Your task to perform on an android device: Search for top rated sushi restaurant Image 0: 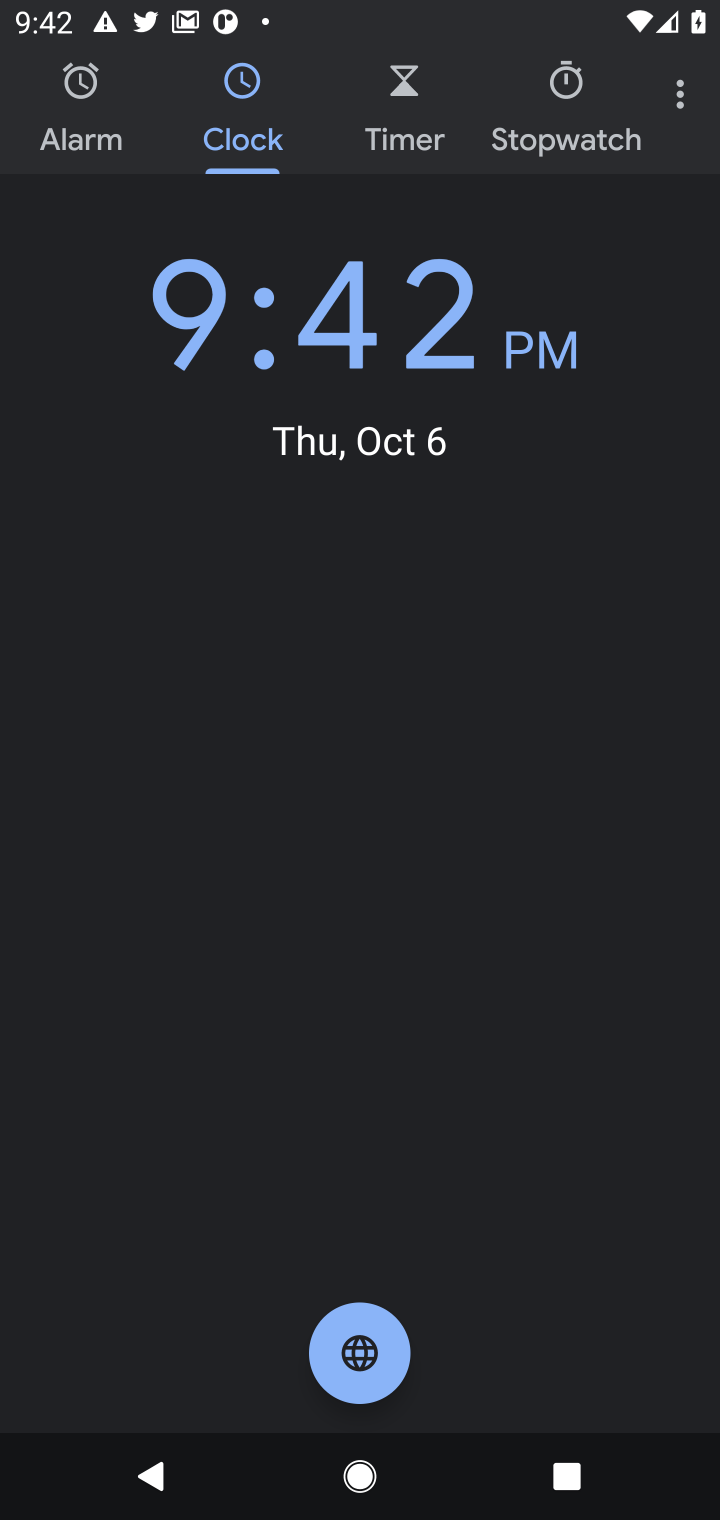
Step 0: press back button
Your task to perform on an android device: Search for top rated sushi restaurant Image 1: 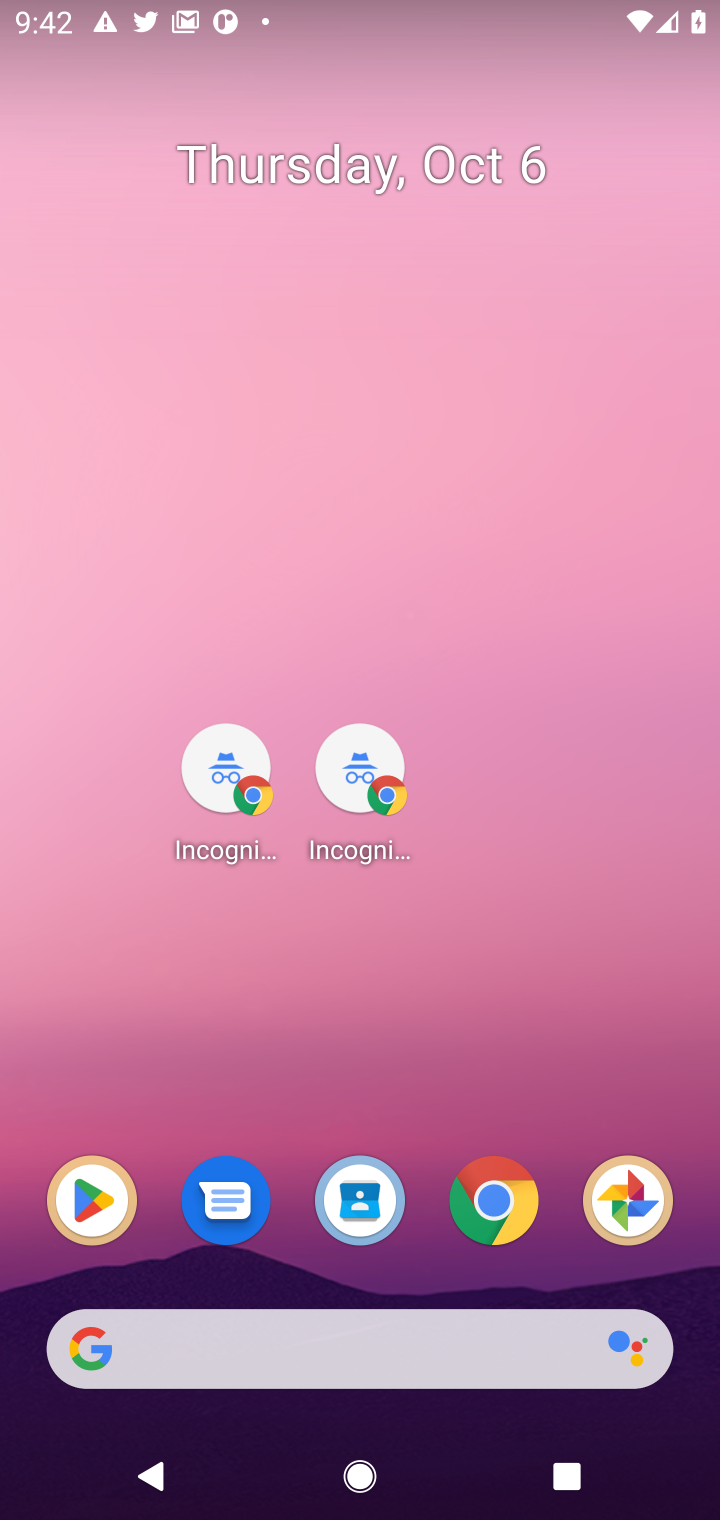
Step 1: click (489, 1215)
Your task to perform on an android device: Search for top rated sushi restaurant Image 2: 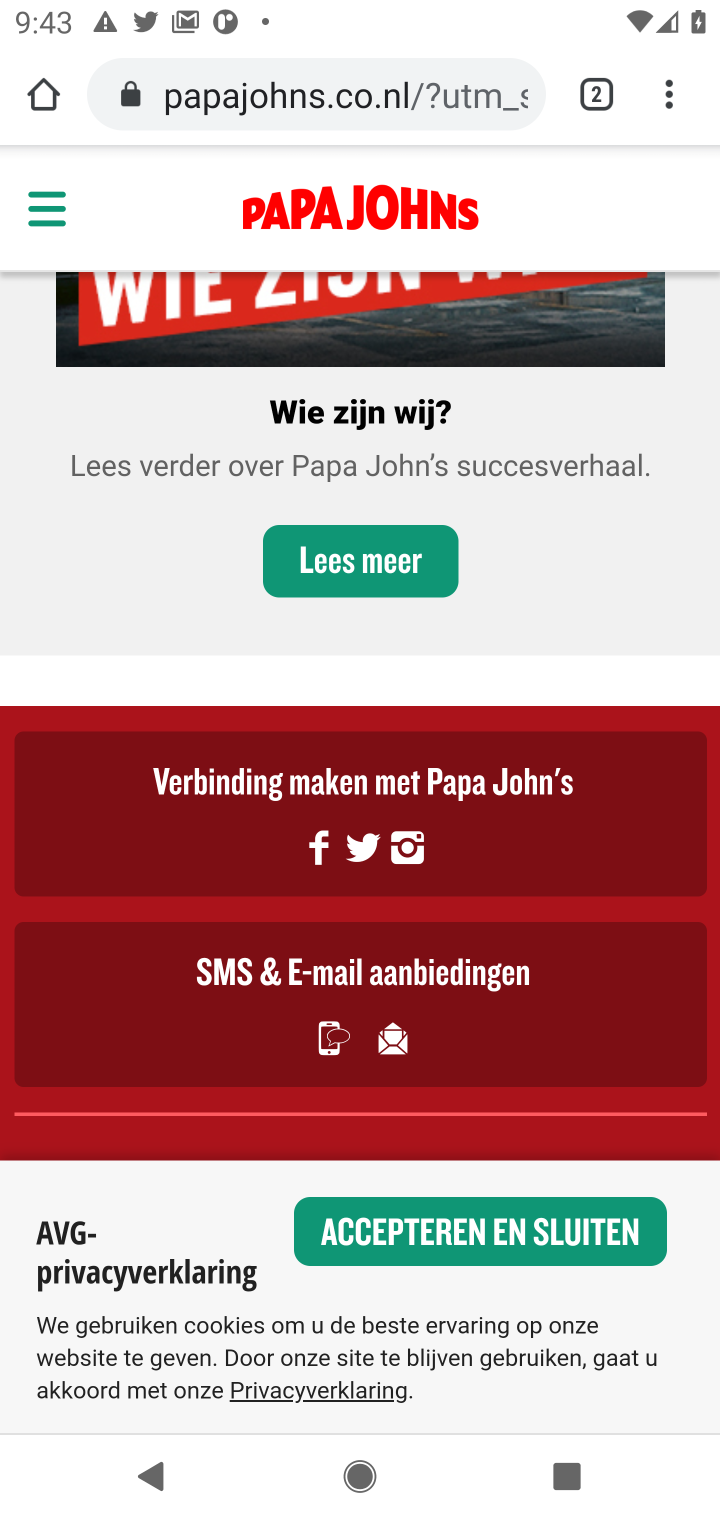
Step 2: press home button
Your task to perform on an android device: Search for top rated sushi restaurant Image 3: 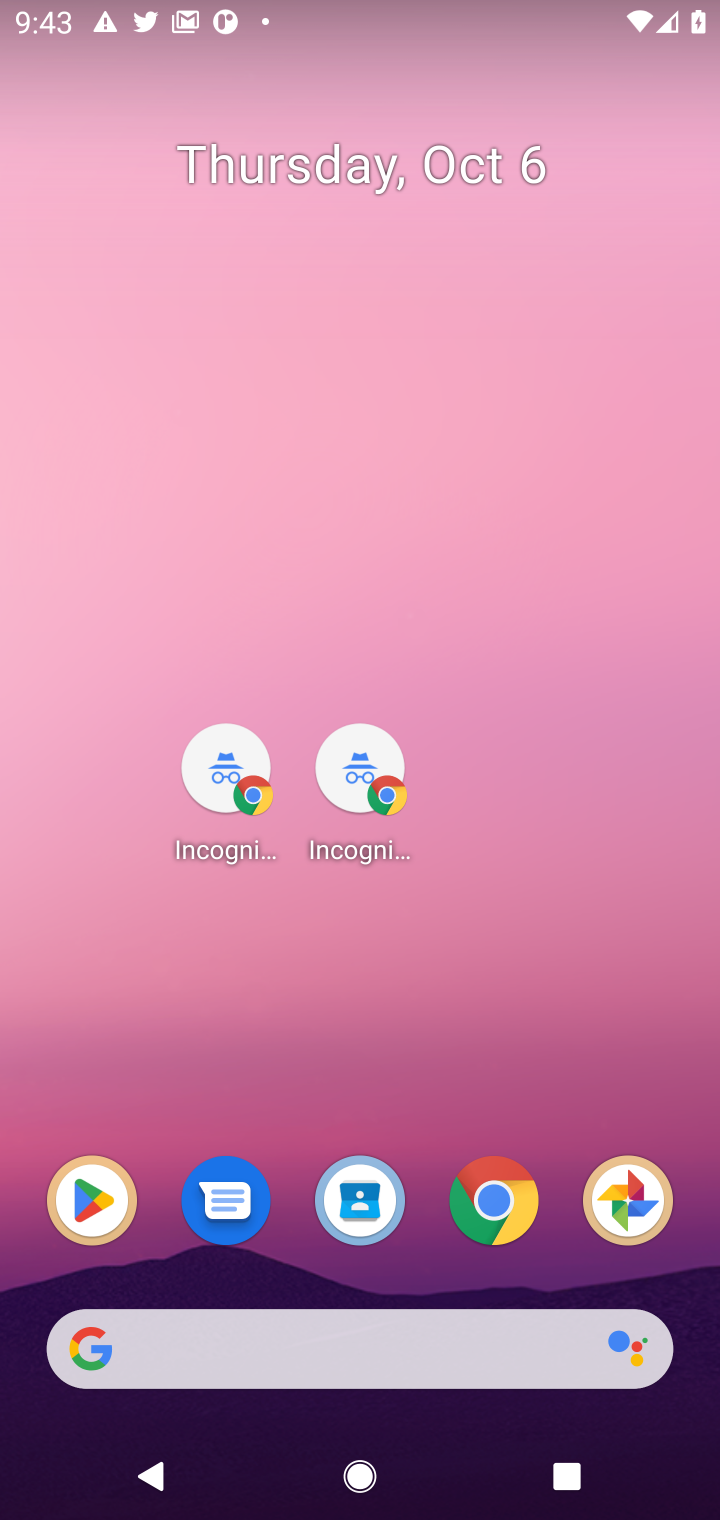
Step 3: click (503, 1214)
Your task to perform on an android device: Search for top rated sushi restaurant Image 4: 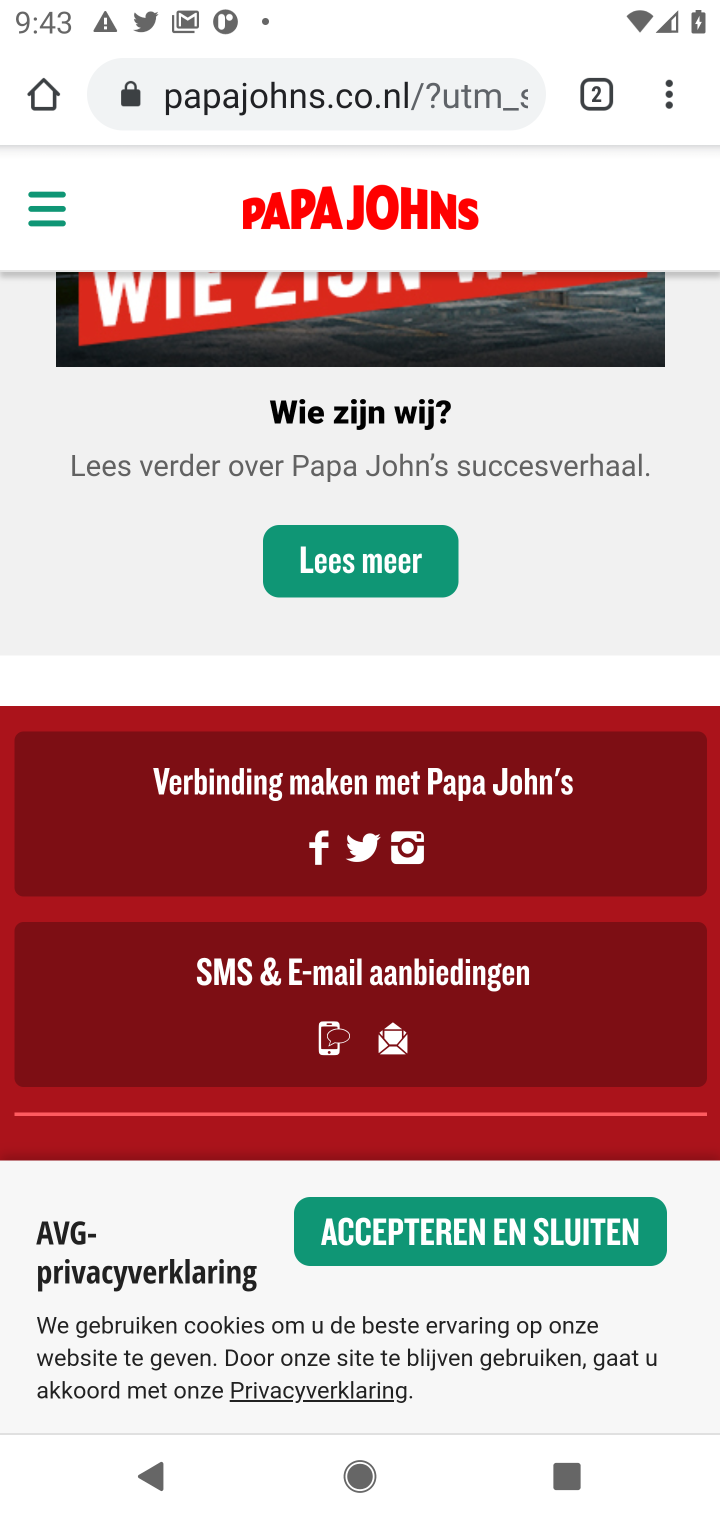
Step 4: press home button
Your task to perform on an android device: Search for top rated sushi restaurant Image 5: 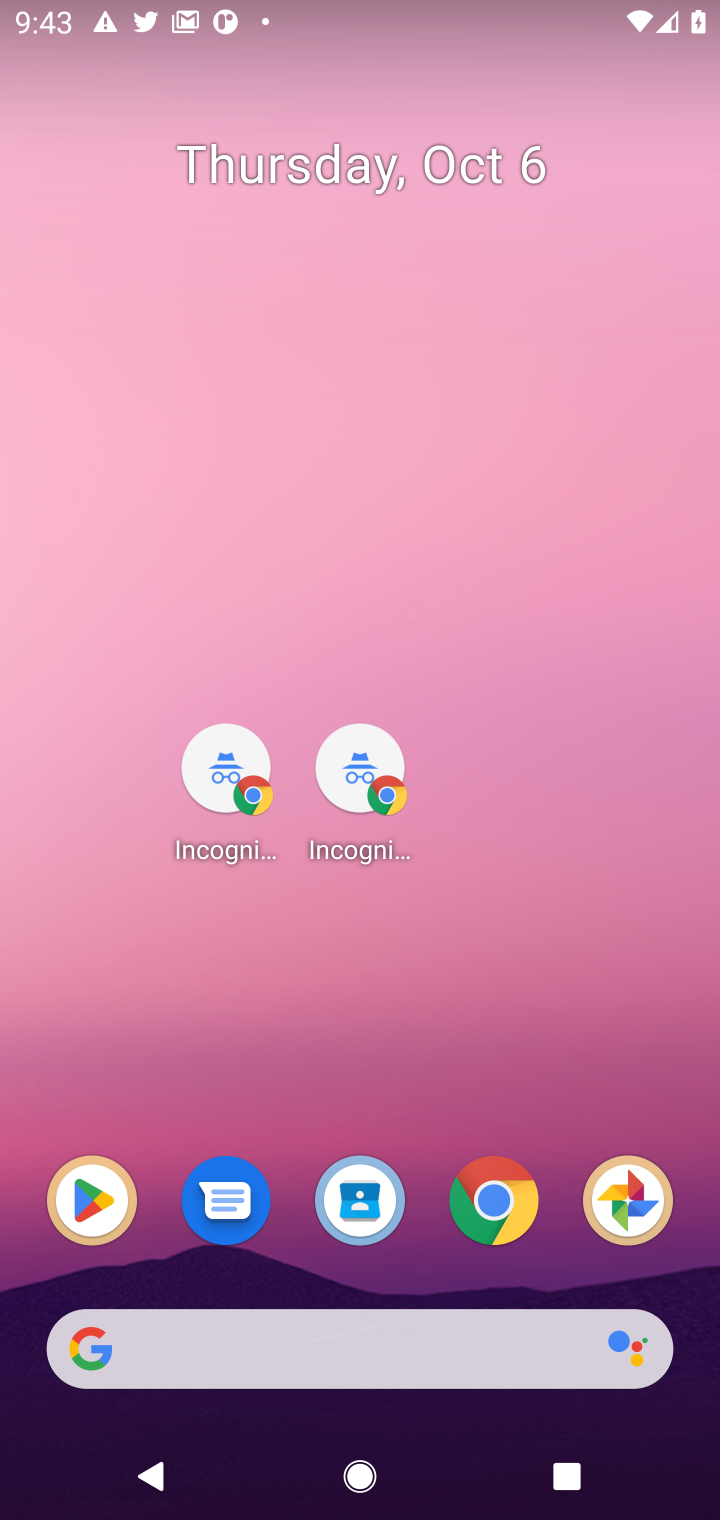
Step 5: click (496, 1198)
Your task to perform on an android device: Search for top rated sushi restaurant Image 6: 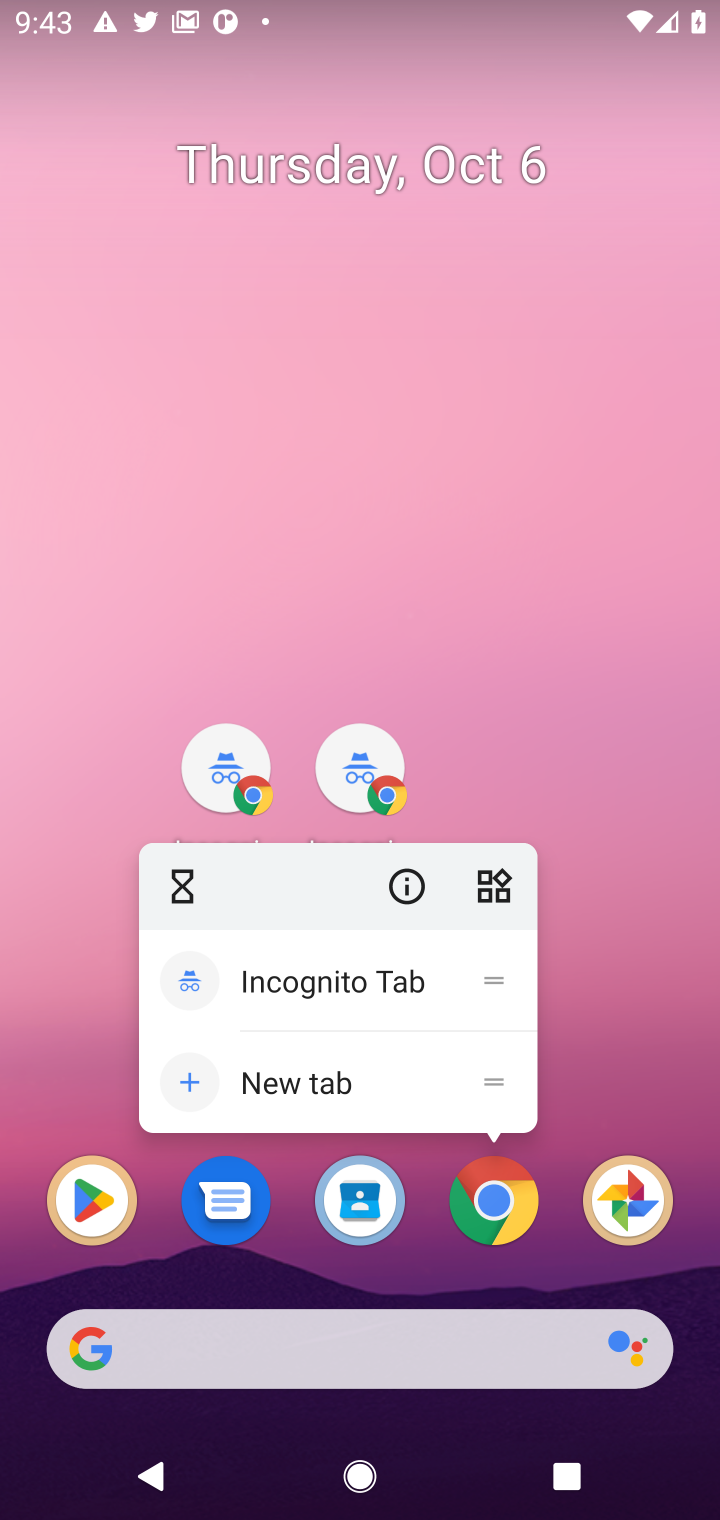
Step 6: press back button
Your task to perform on an android device: Search for top rated sushi restaurant Image 7: 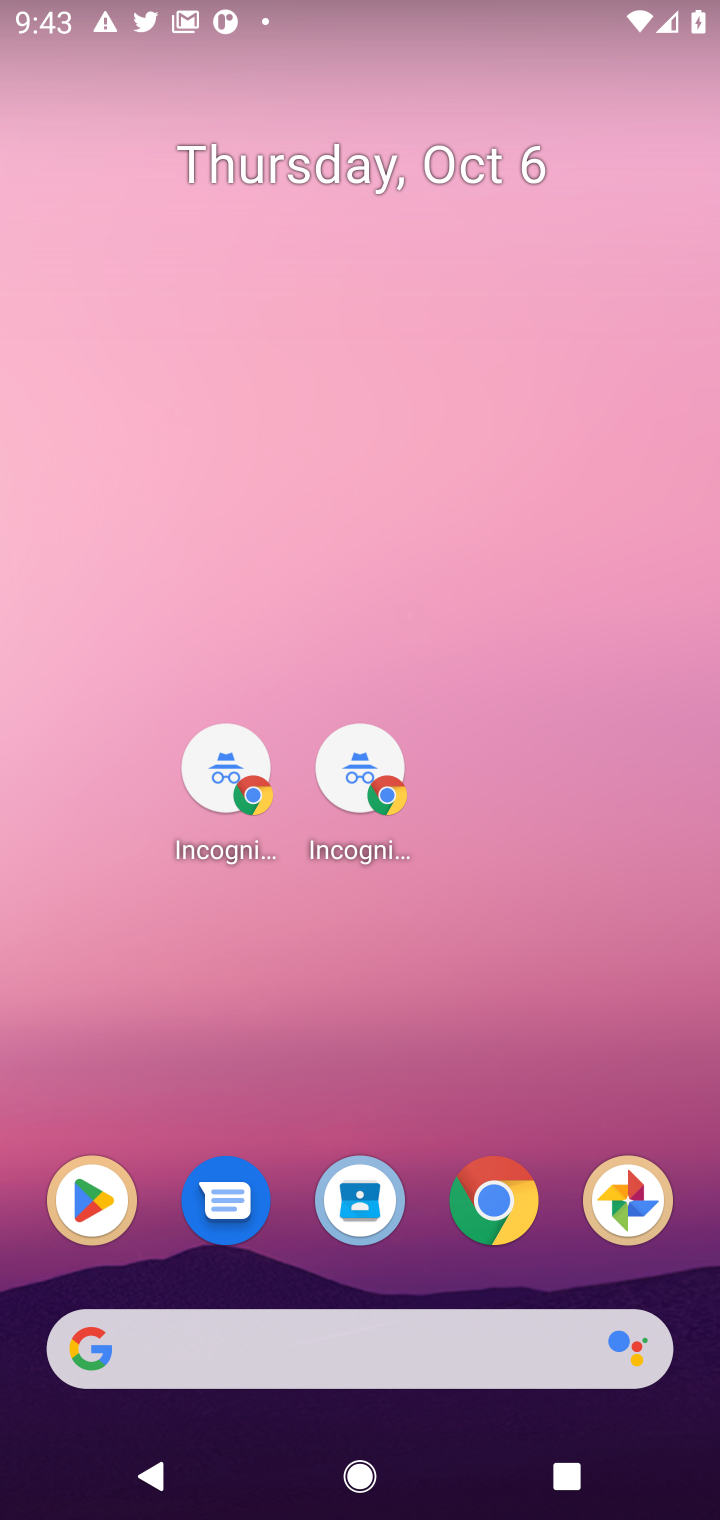
Step 7: press back button
Your task to perform on an android device: Search for top rated sushi restaurant Image 8: 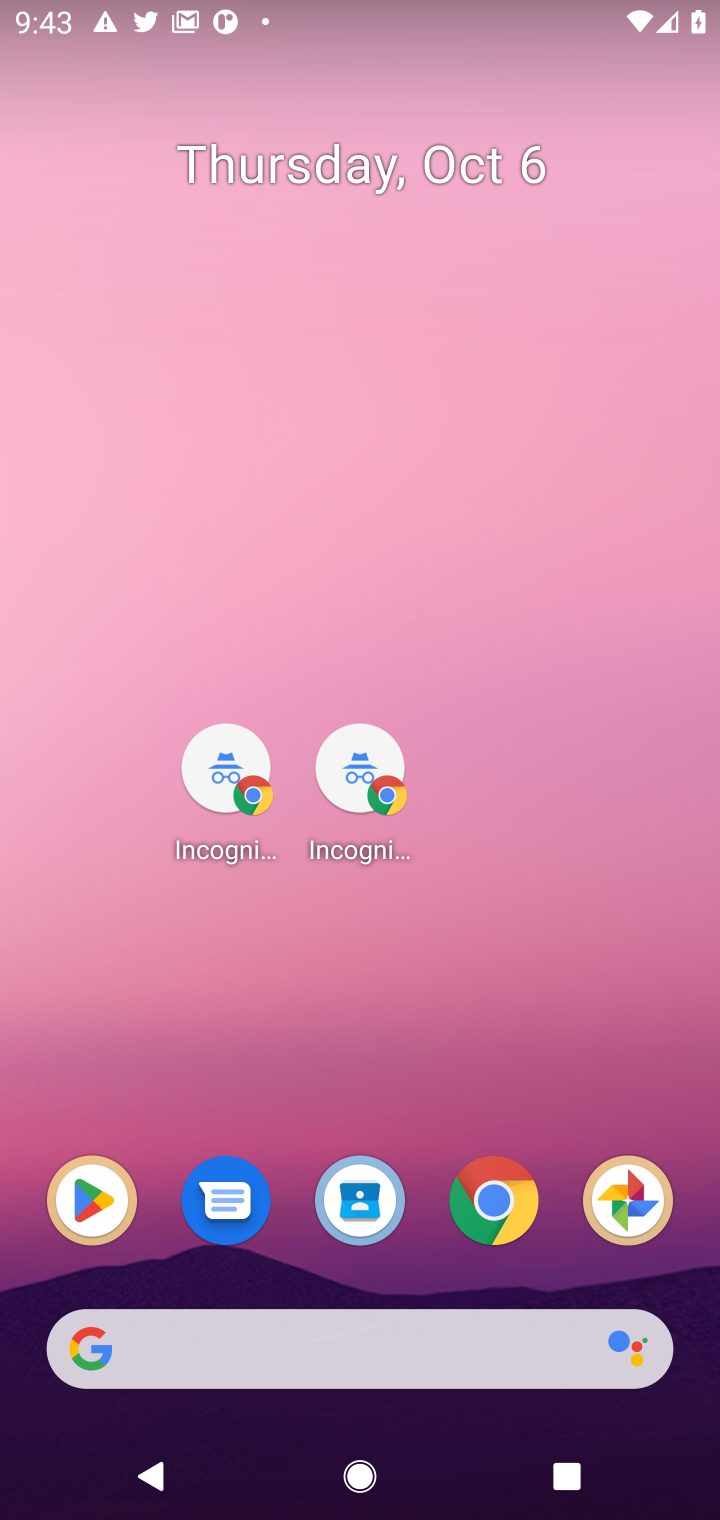
Step 8: press home button
Your task to perform on an android device: Search for top rated sushi restaurant Image 9: 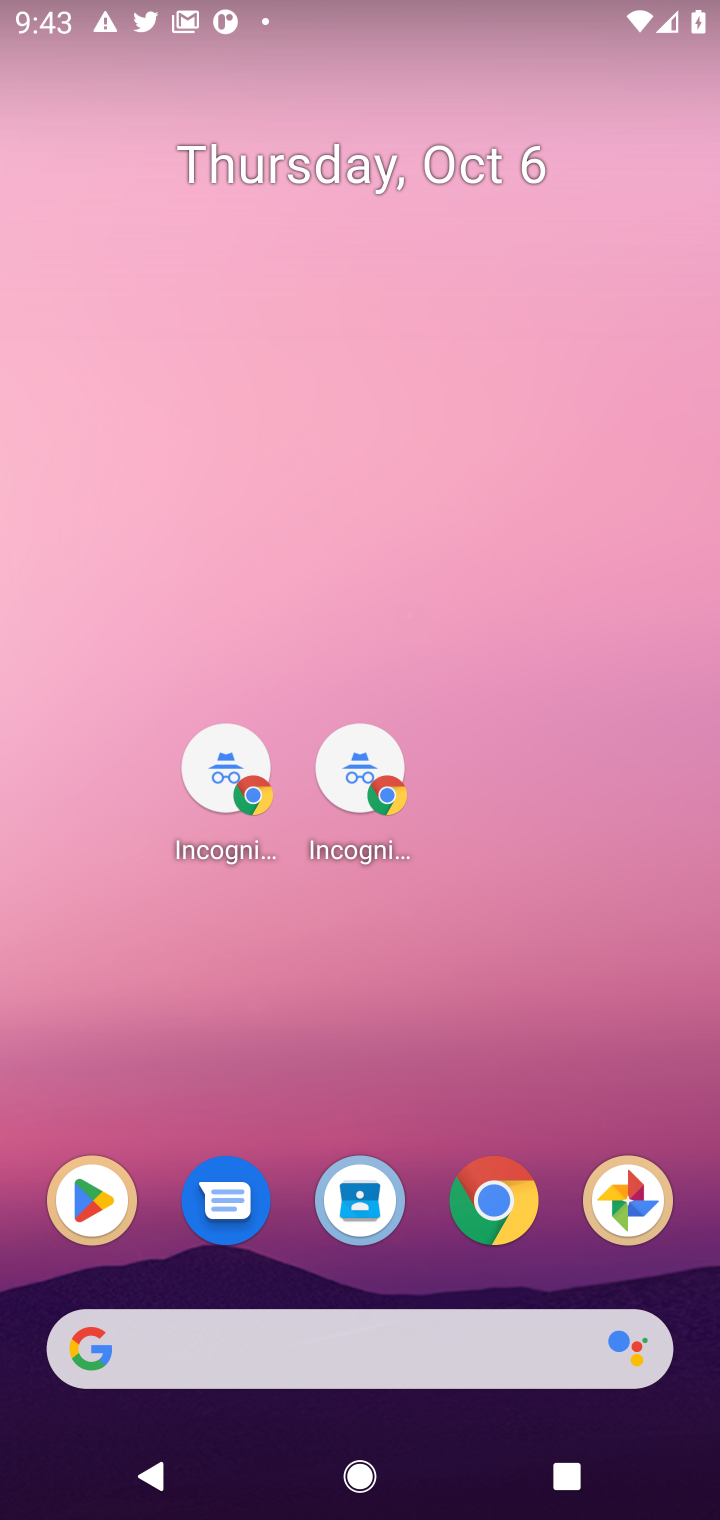
Step 9: press home button
Your task to perform on an android device: Search for top rated sushi restaurant Image 10: 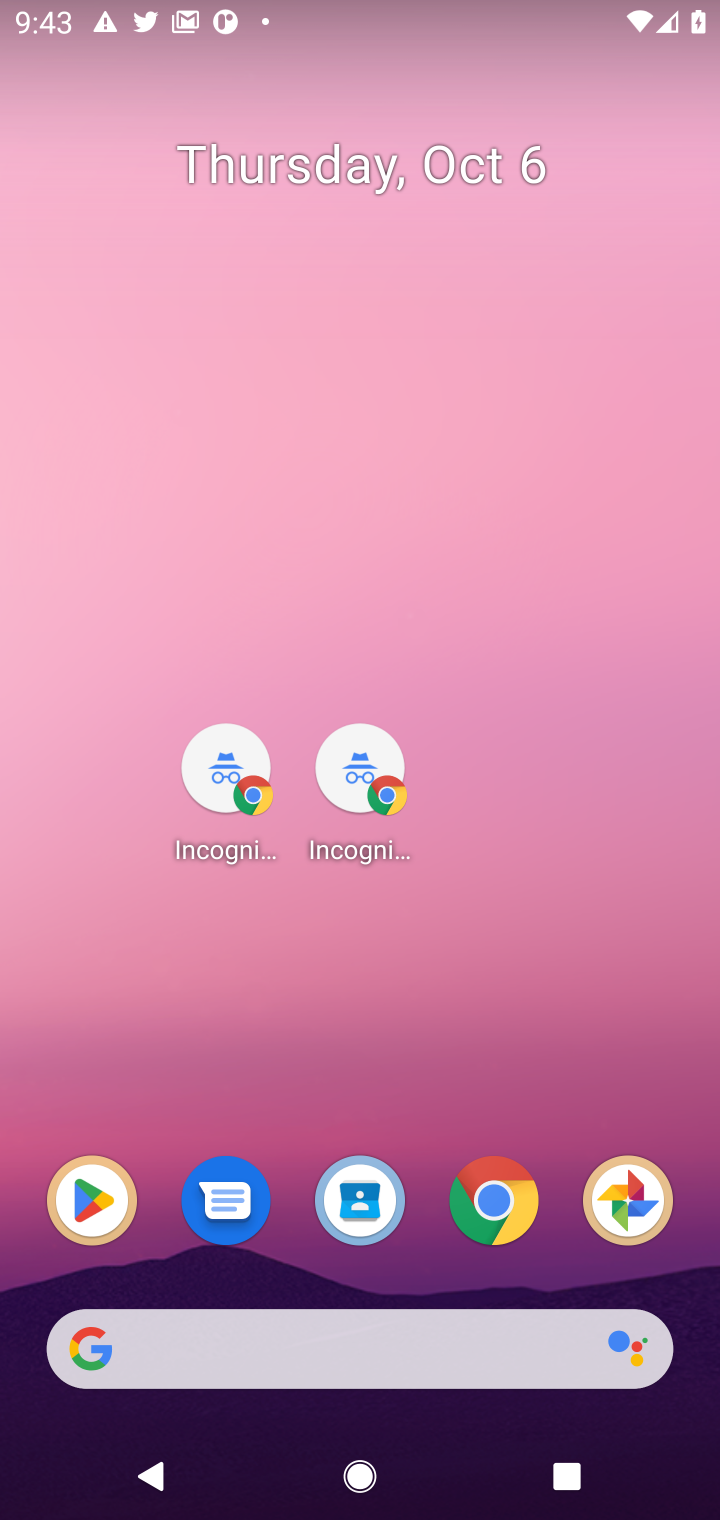
Step 10: click (470, 1168)
Your task to perform on an android device: Search for top rated sushi restaurant Image 11: 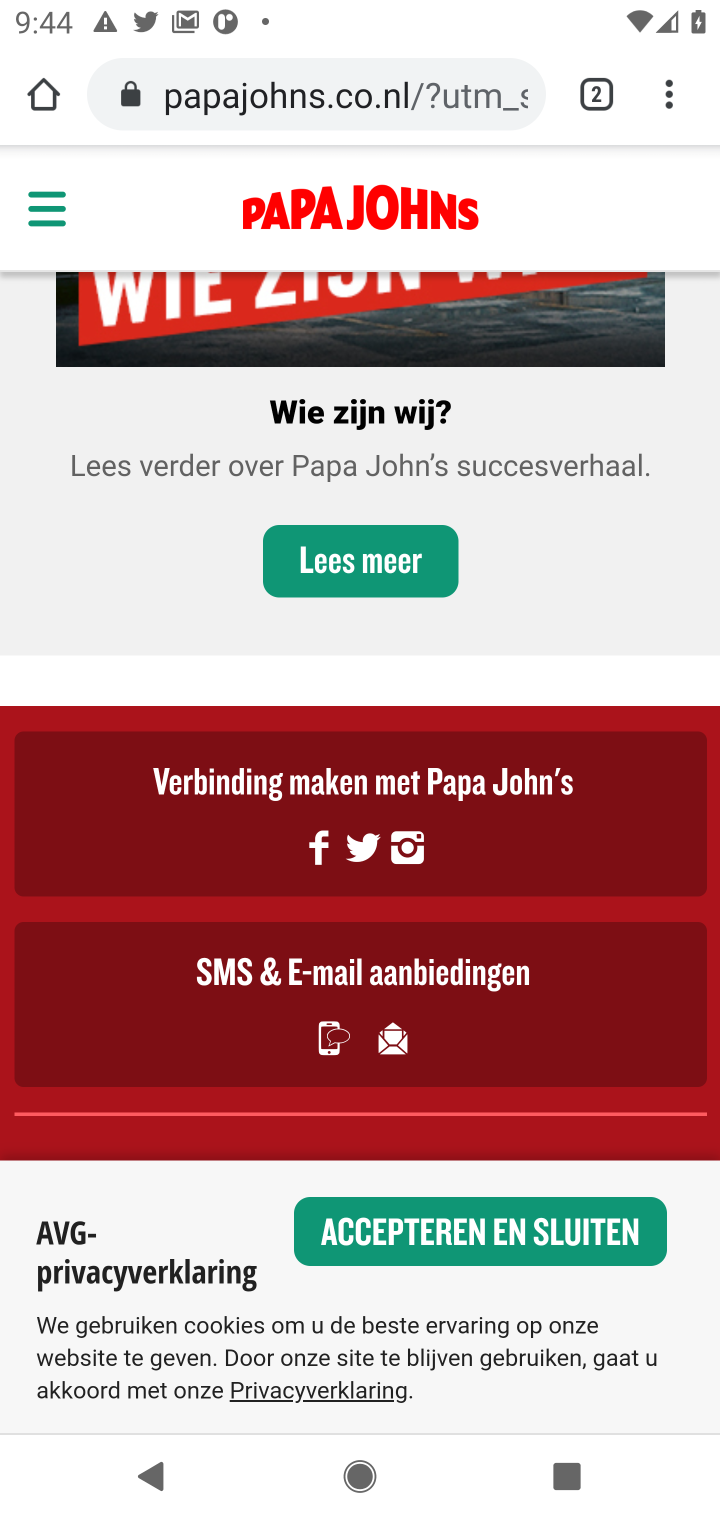
Step 11: press back button
Your task to perform on an android device: Search for top rated sushi restaurant Image 12: 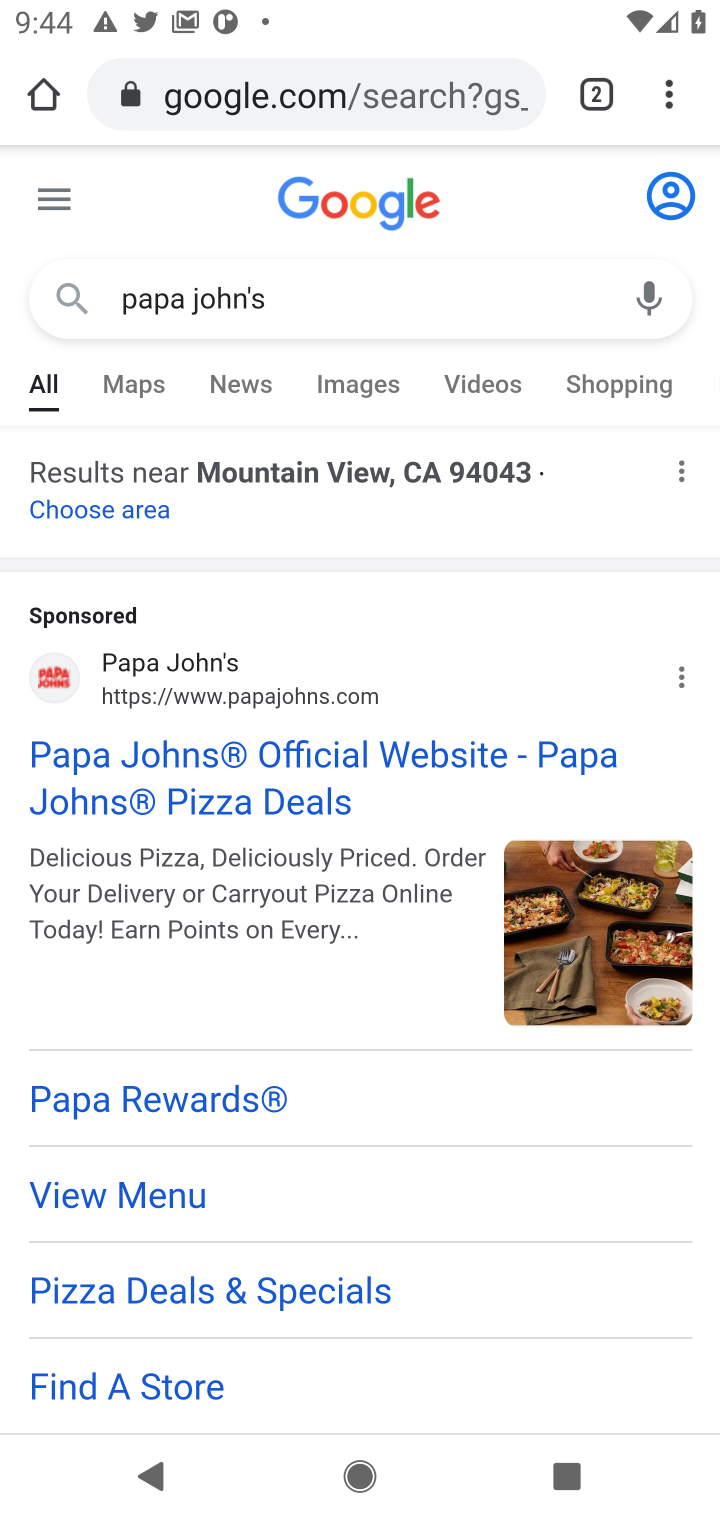
Step 12: click (357, 299)
Your task to perform on an android device: Search for top rated sushi restaurant Image 13: 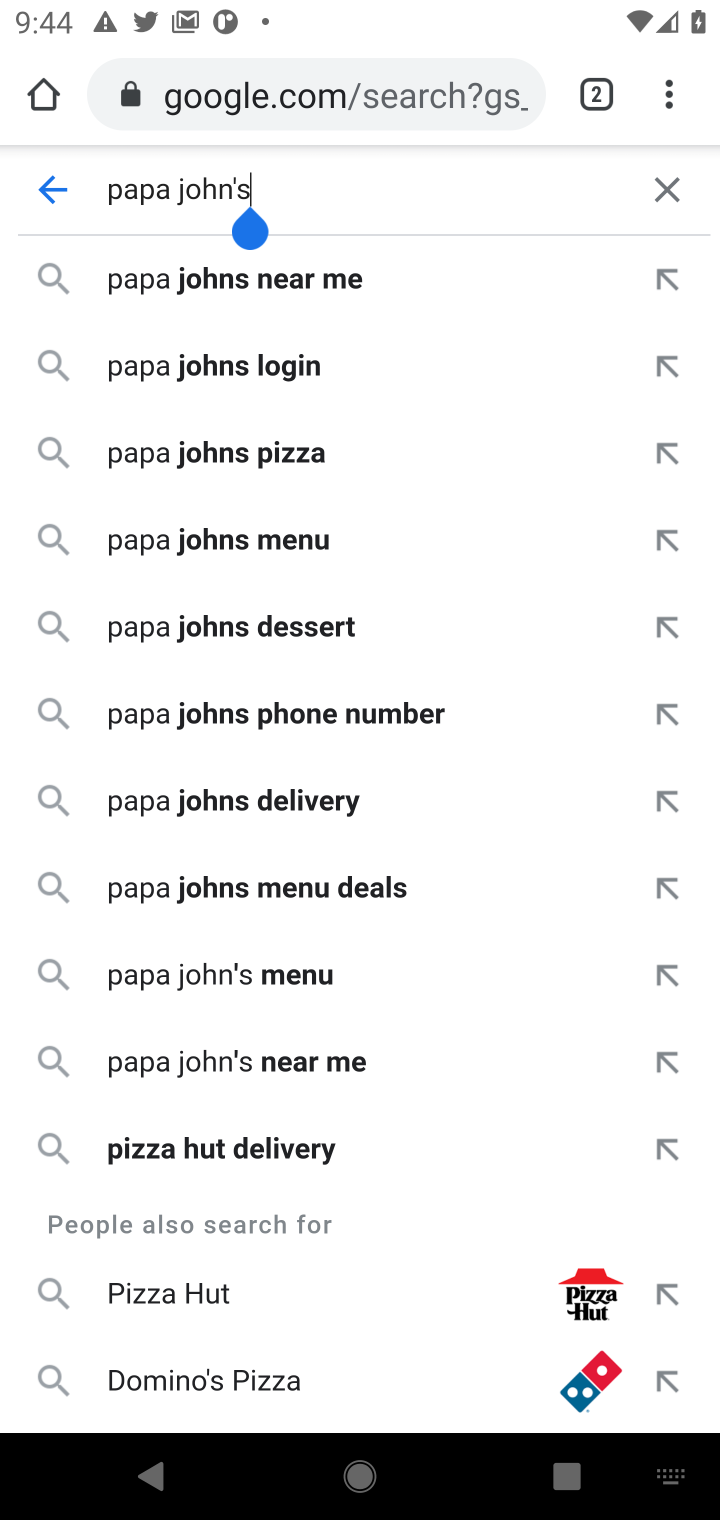
Step 13: click (345, 84)
Your task to perform on an android device: Search for top rated sushi restaurant Image 14: 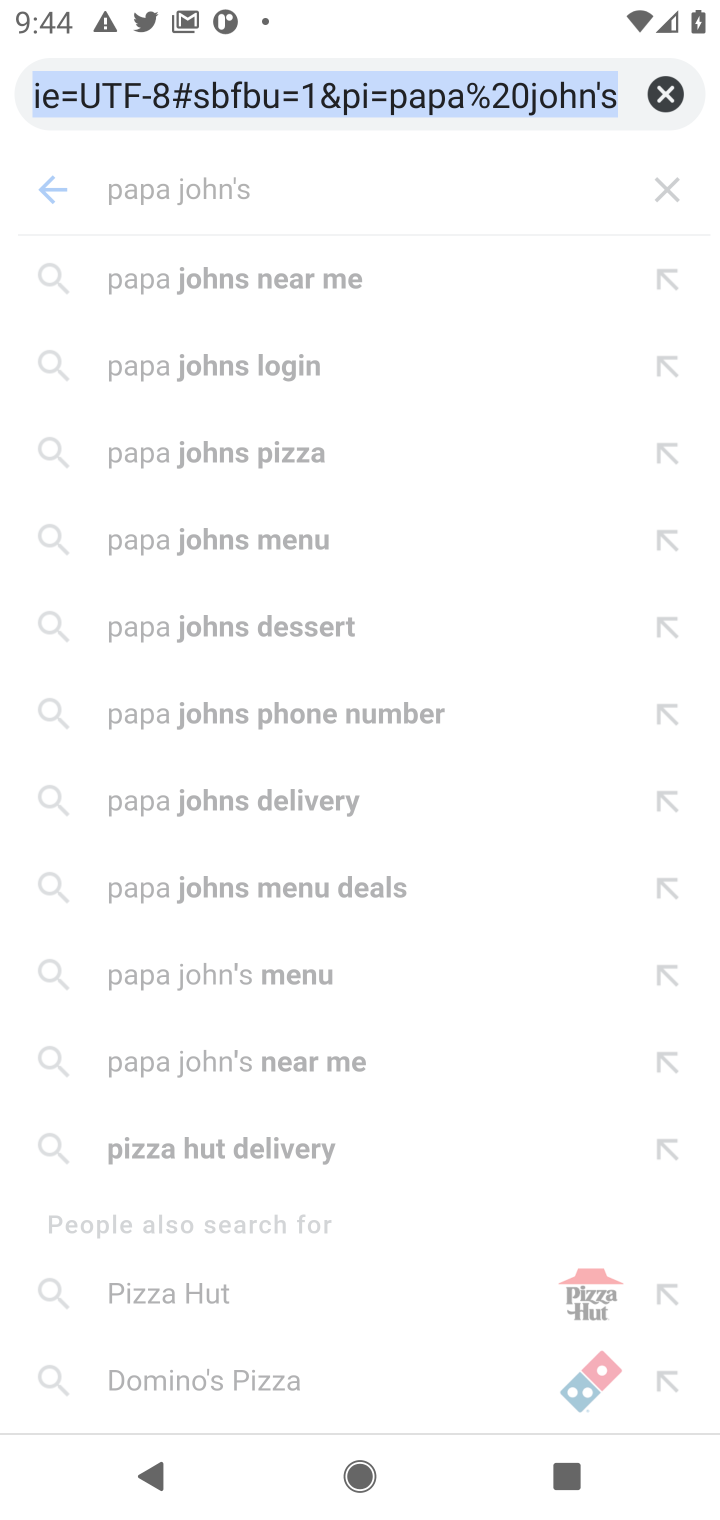
Step 14: click (657, 93)
Your task to perform on an android device: Search for top rated sushi restaurant Image 15: 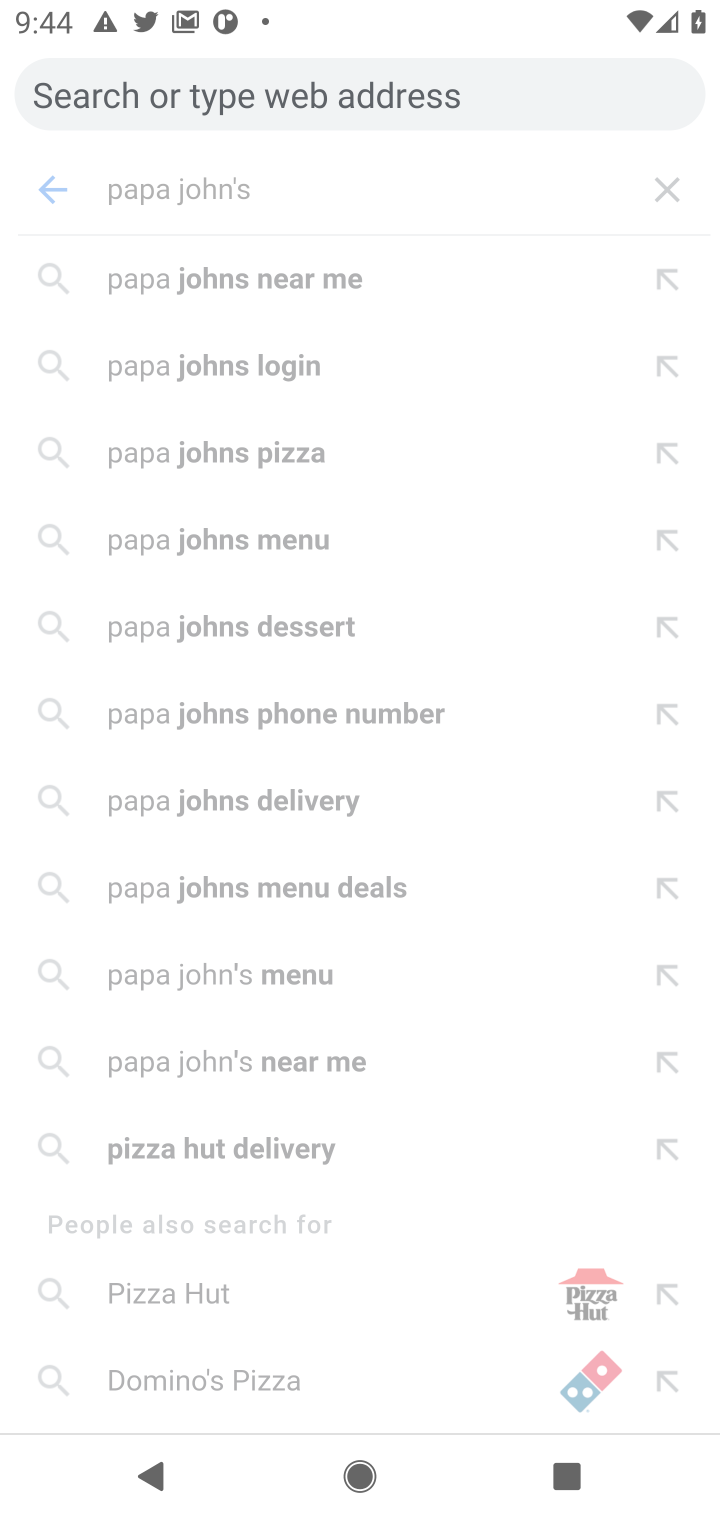
Step 15: type "top rated sushi resturant"
Your task to perform on an android device: Search for top rated sushi restaurant Image 16: 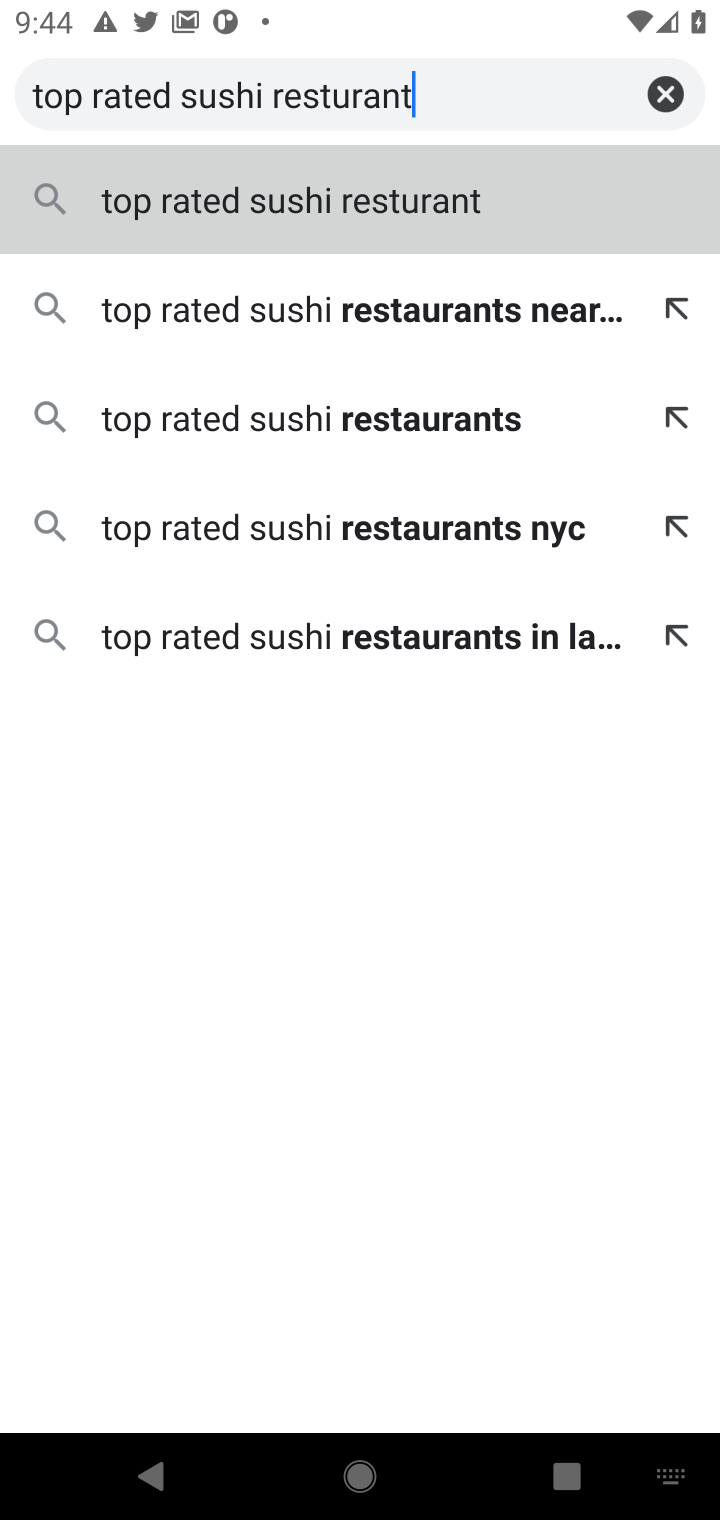
Step 16: click (391, 315)
Your task to perform on an android device: Search for top rated sushi restaurant Image 17: 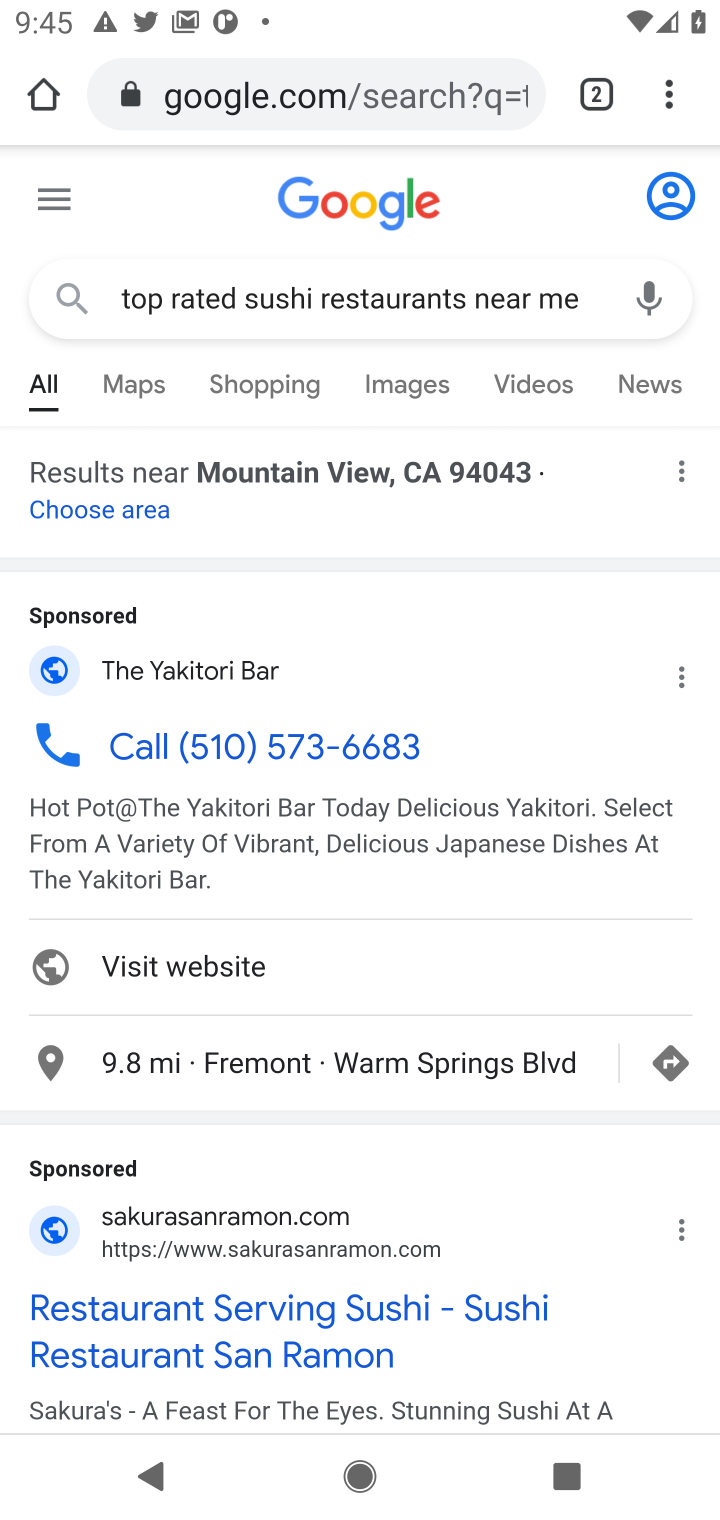
Step 17: drag from (426, 1164) to (601, 463)
Your task to perform on an android device: Search for top rated sushi restaurant Image 18: 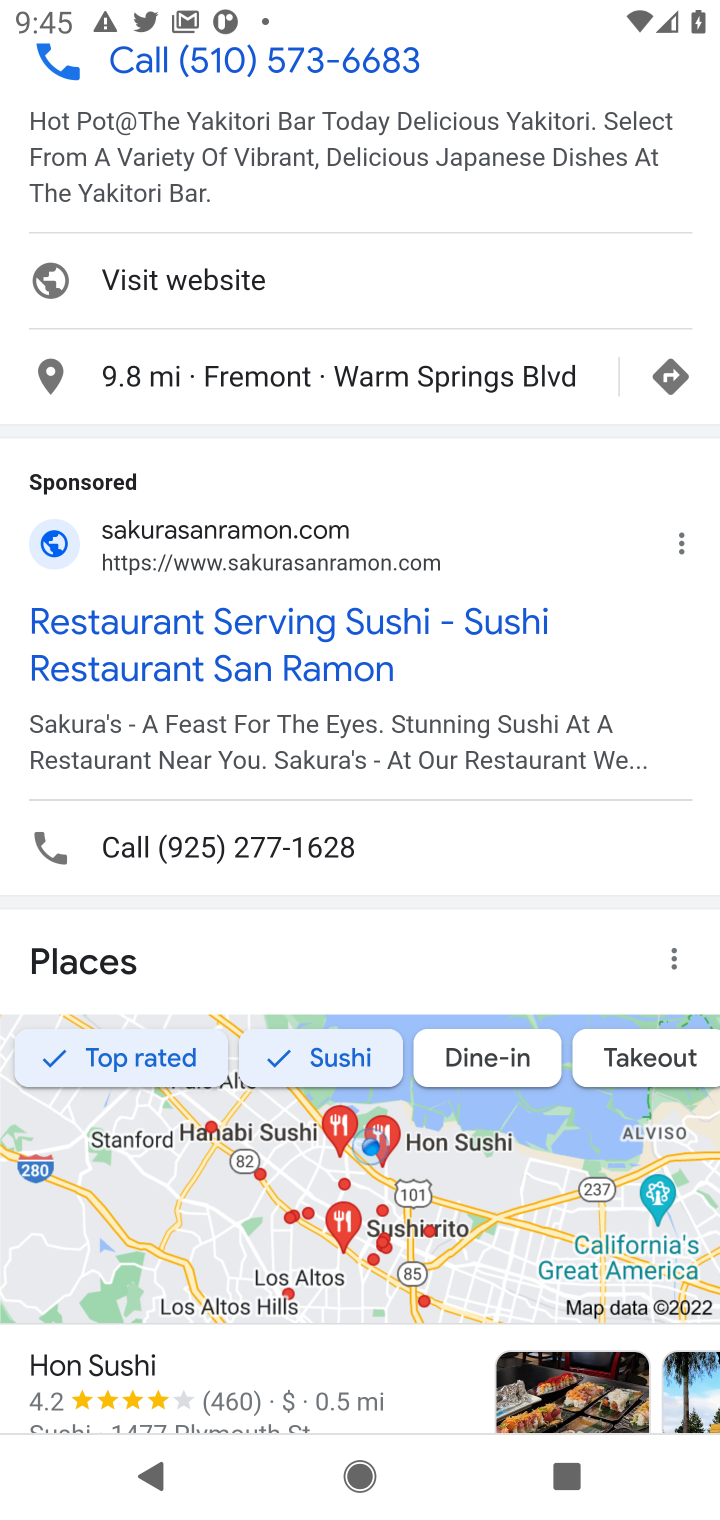
Step 18: click (266, 609)
Your task to perform on an android device: Search for top rated sushi restaurant Image 19: 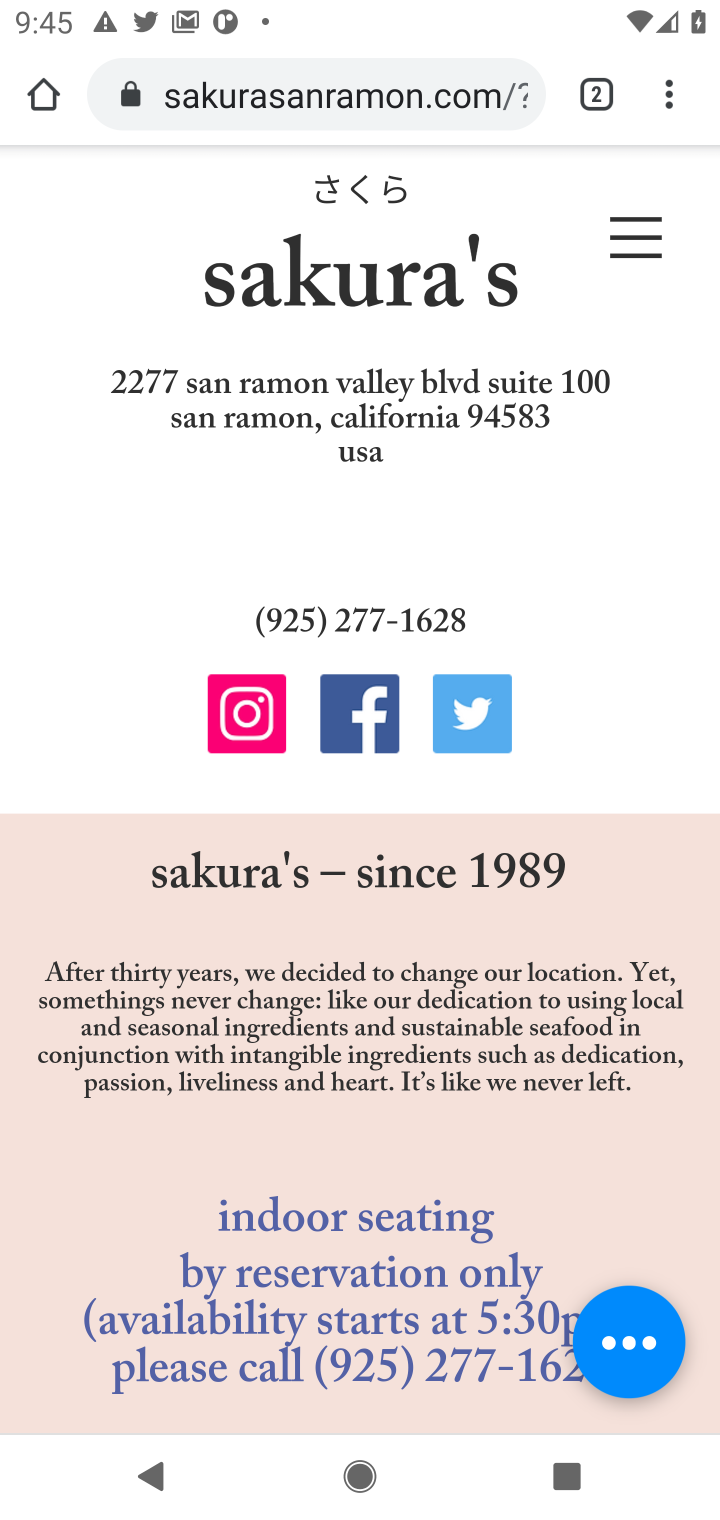
Step 19: drag from (594, 932) to (633, 673)
Your task to perform on an android device: Search for top rated sushi restaurant Image 20: 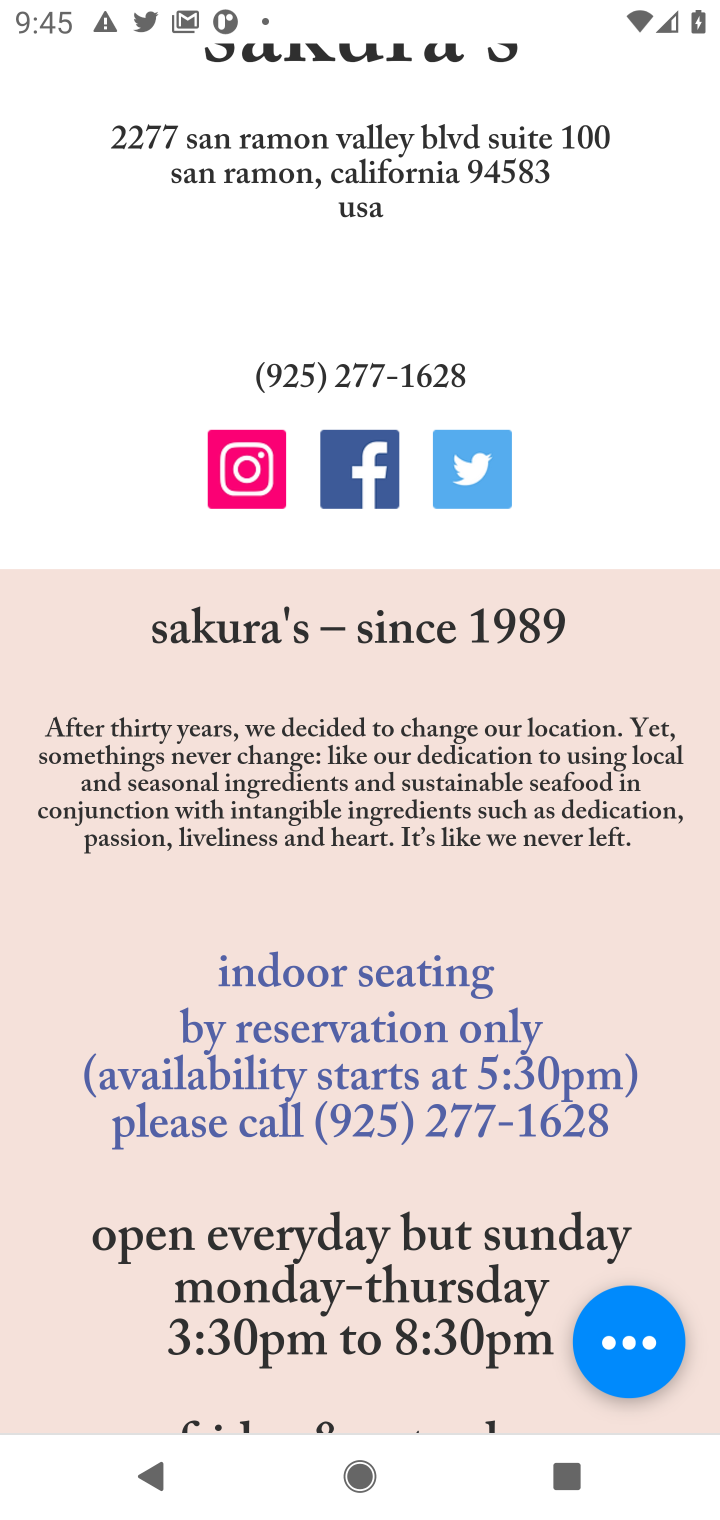
Step 20: drag from (454, 852) to (463, 625)
Your task to perform on an android device: Search for top rated sushi restaurant Image 21: 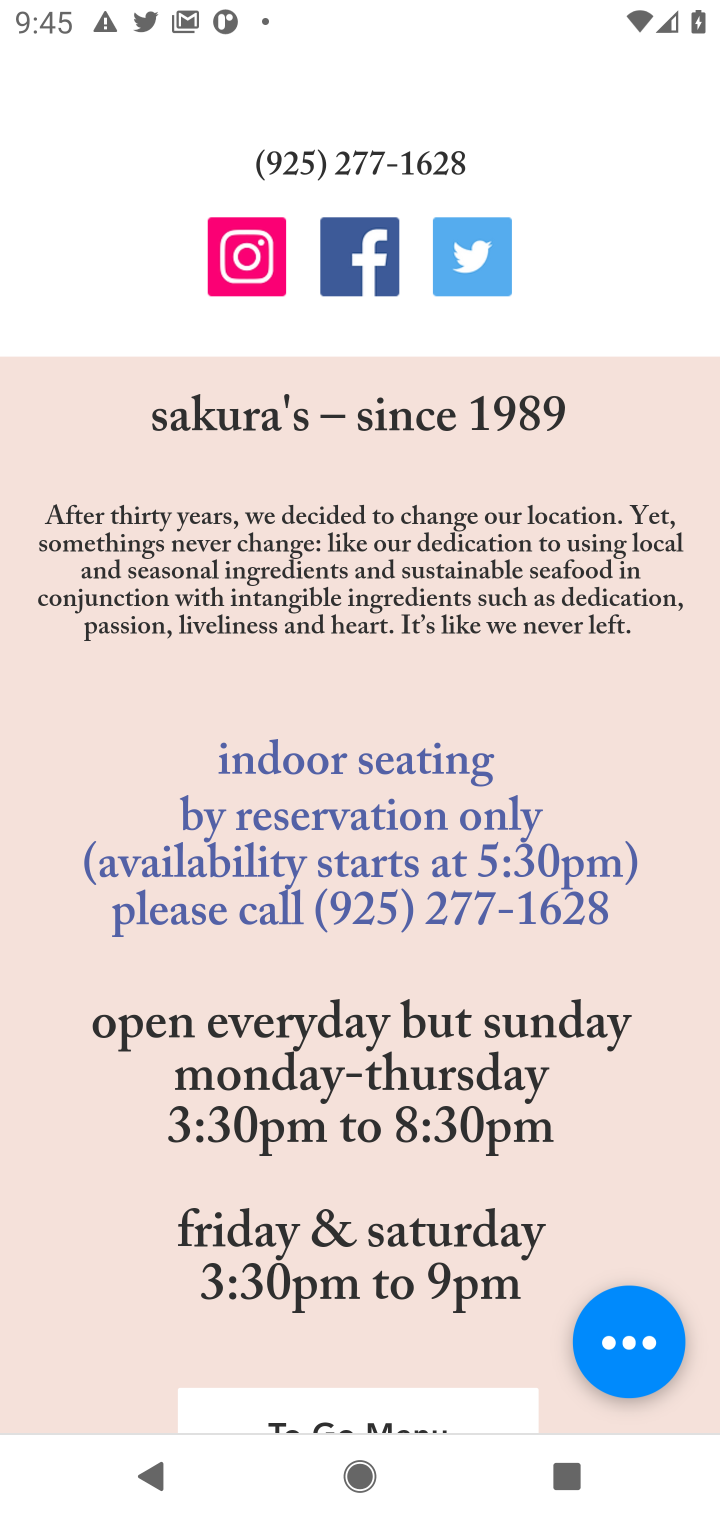
Step 21: drag from (397, 953) to (381, 575)
Your task to perform on an android device: Search for top rated sushi restaurant Image 22: 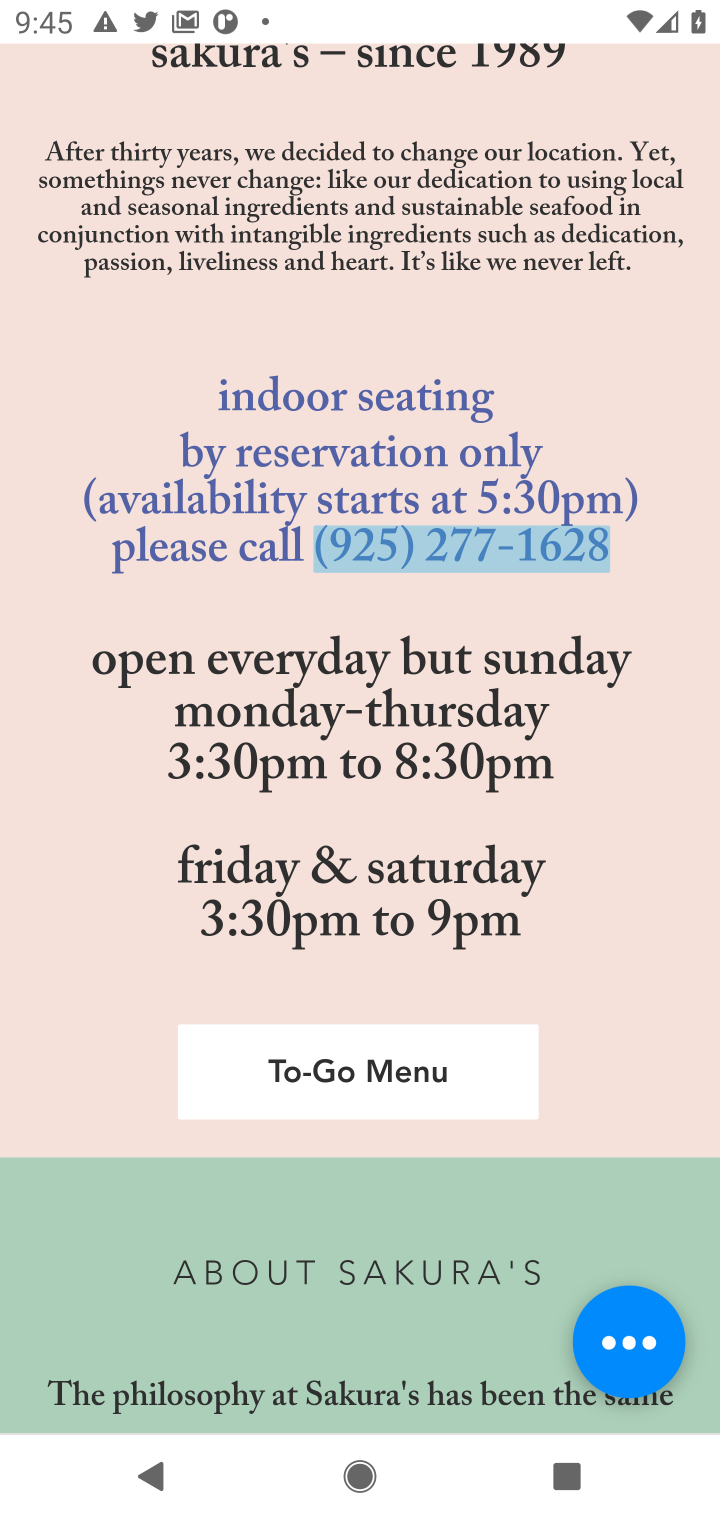
Step 22: drag from (375, 1138) to (389, 648)
Your task to perform on an android device: Search for top rated sushi restaurant Image 23: 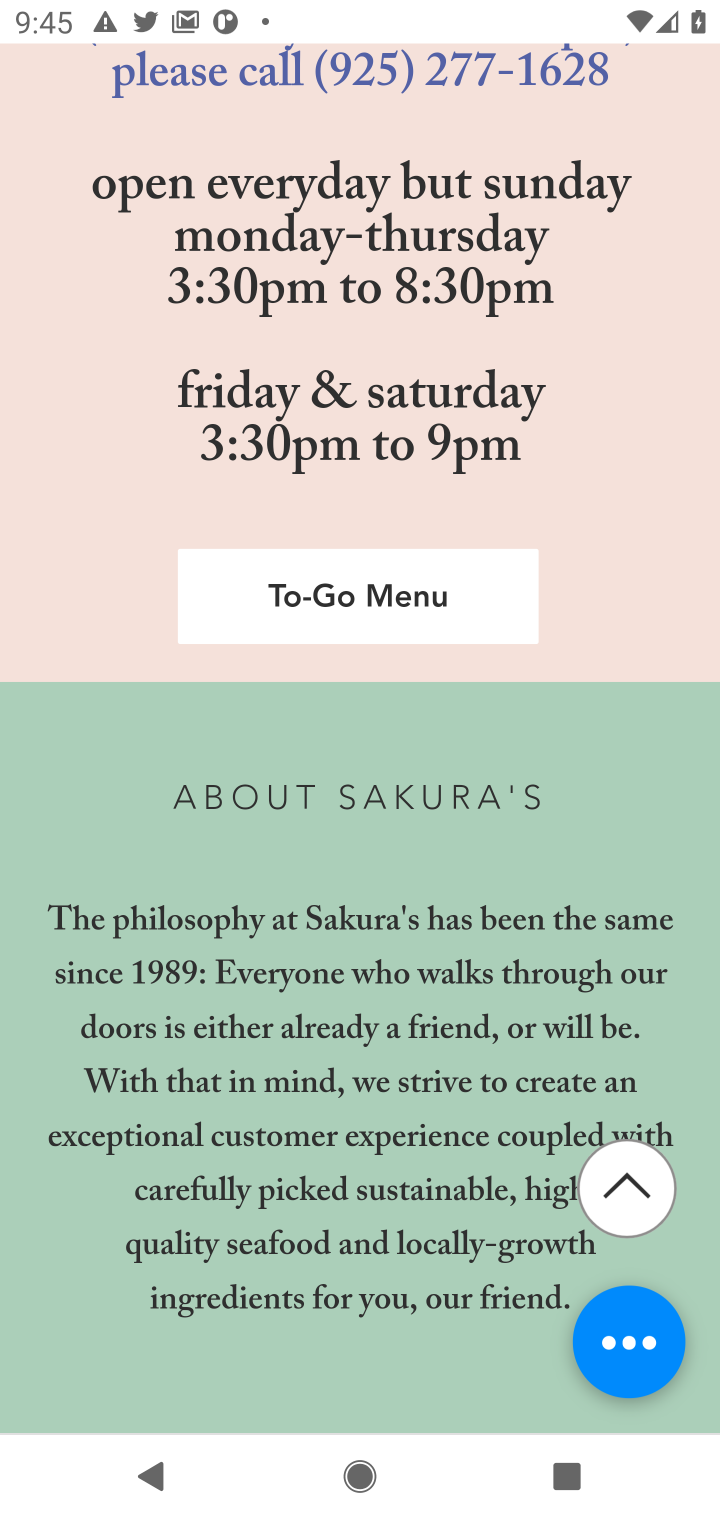
Step 23: drag from (423, 425) to (538, 1265)
Your task to perform on an android device: Search for top rated sushi restaurant Image 24: 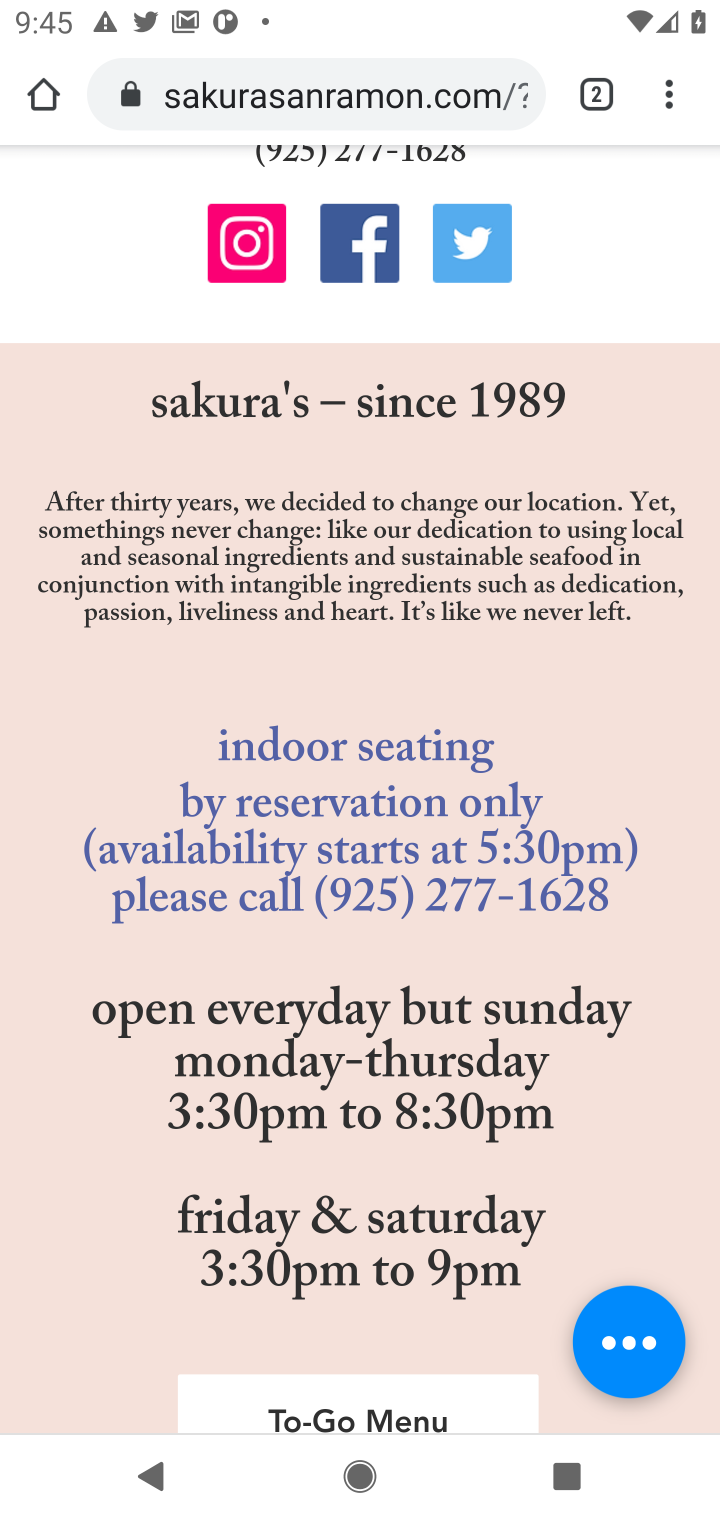
Step 24: drag from (613, 834) to (595, 1373)
Your task to perform on an android device: Search for top rated sushi restaurant Image 25: 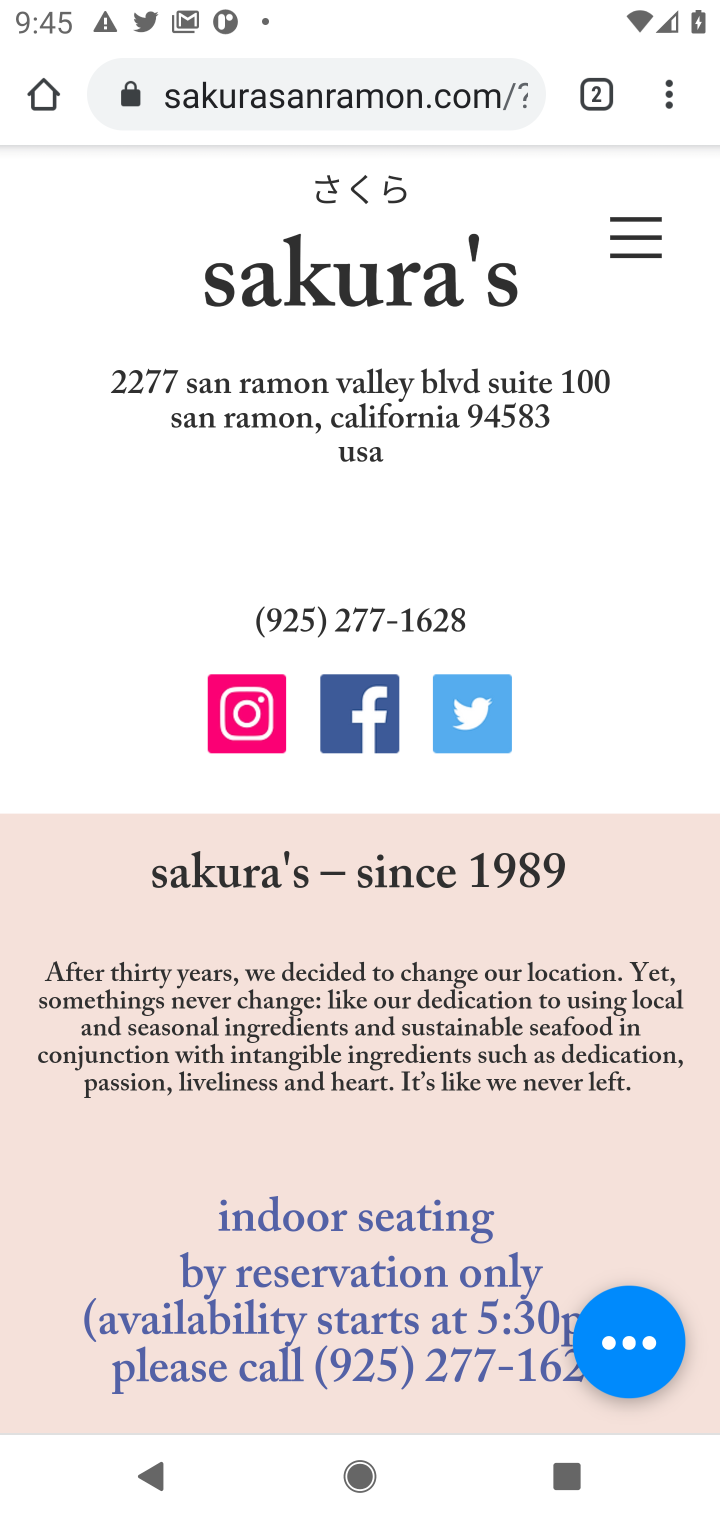
Step 25: drag from (362, 393) to (448, 1117)
Your task to perform on an android device: Search for top rated sushi restaurant Image 26: 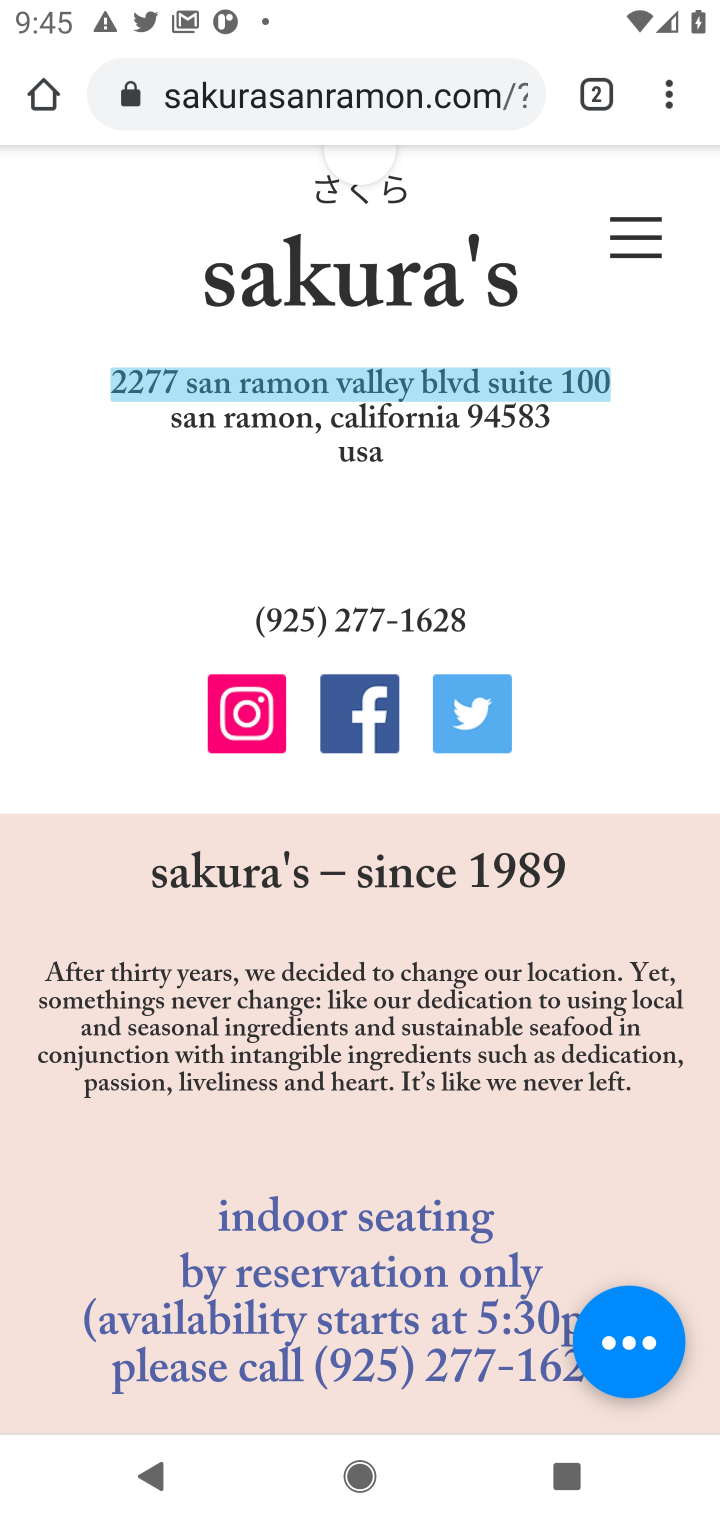
Step 26: drag from (169, 554) to (204, 1142)
Your task to perform on an android device: Search for top rated sushi restaurant Image 27: 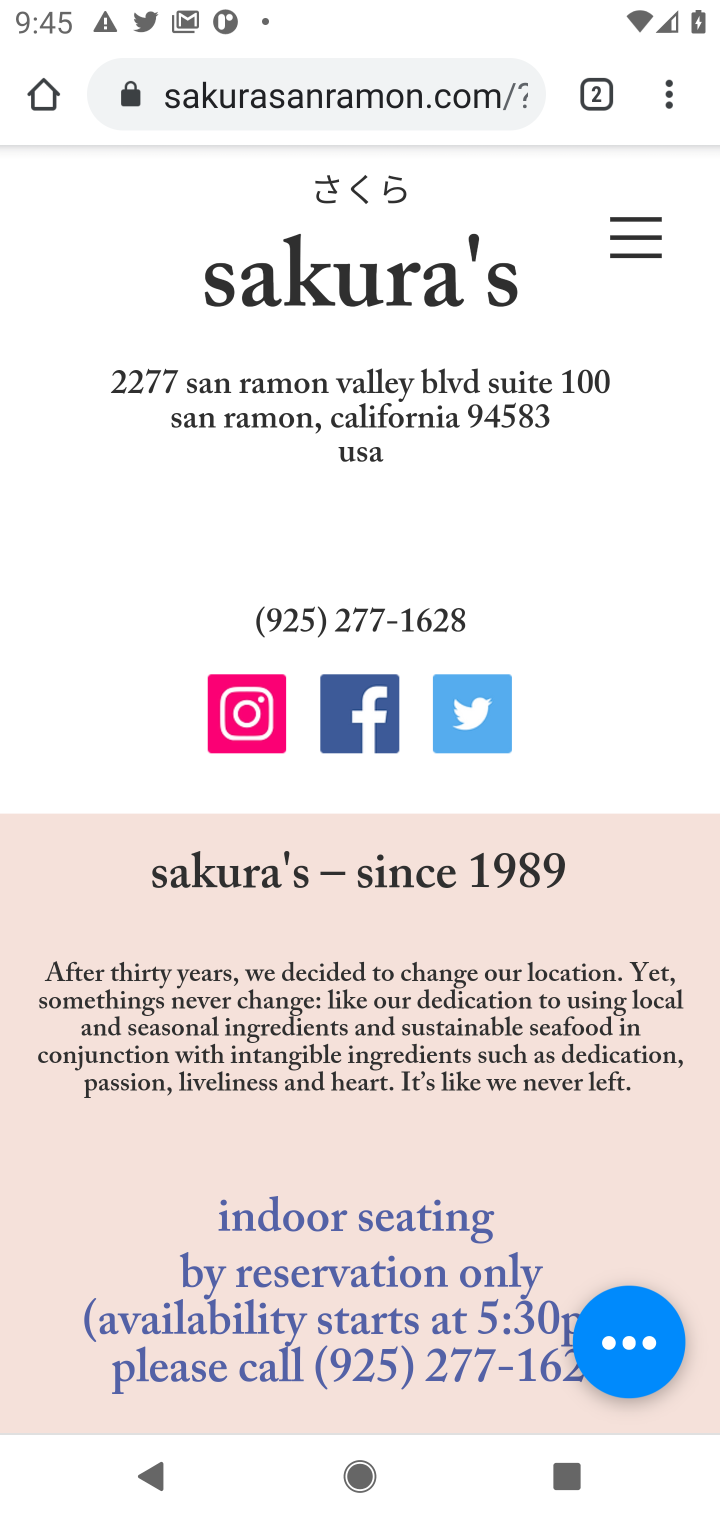
Step 27: click (347, 69)
Your task to perform on an android device: Search for top rated sushi restaurant Image 28: 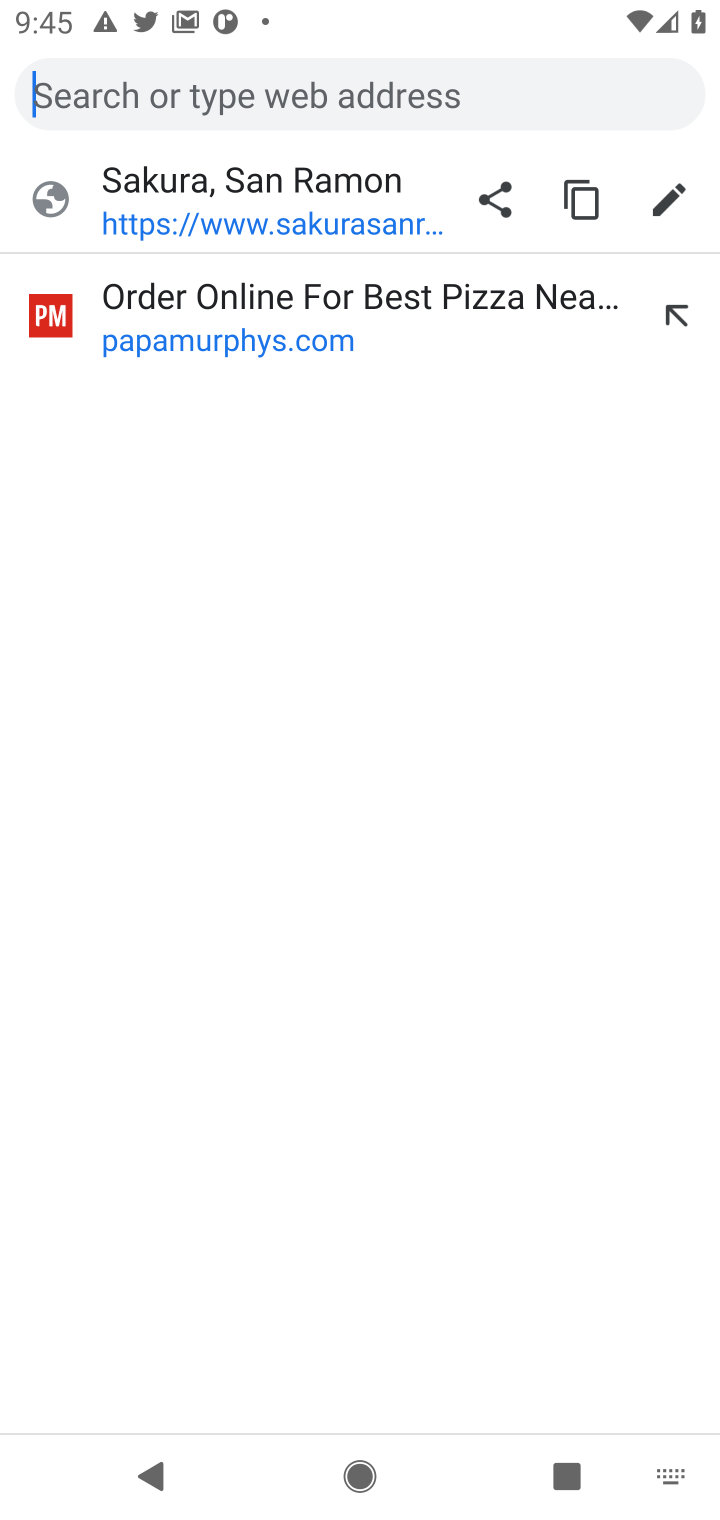
Step 28: click (349, 90)
Your task to perform on an android device: Search for top rated sushi restaurant Image 29: 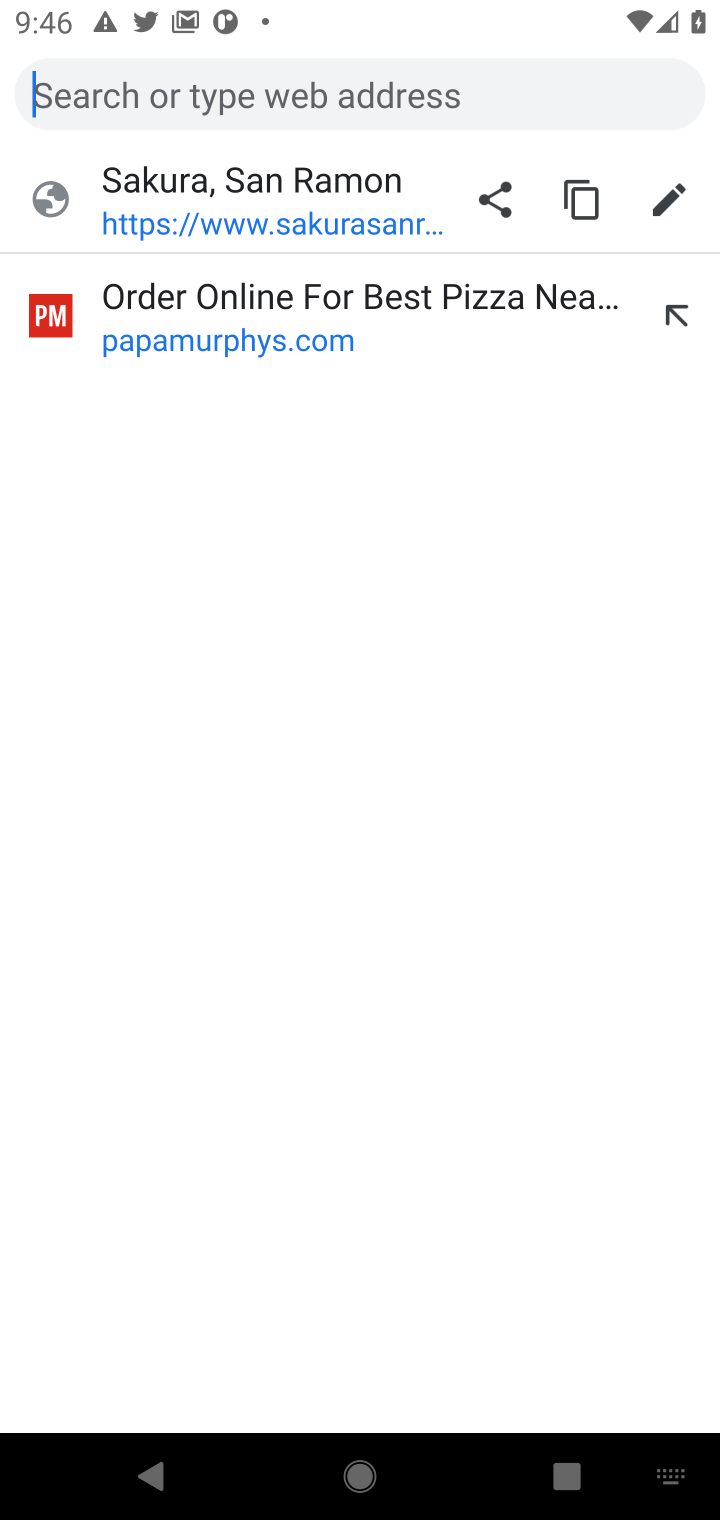
Step 29: type "top rated sushi restaurant"
Your task to perform on an android device: Search for top rated sushi restaurant Image 30: 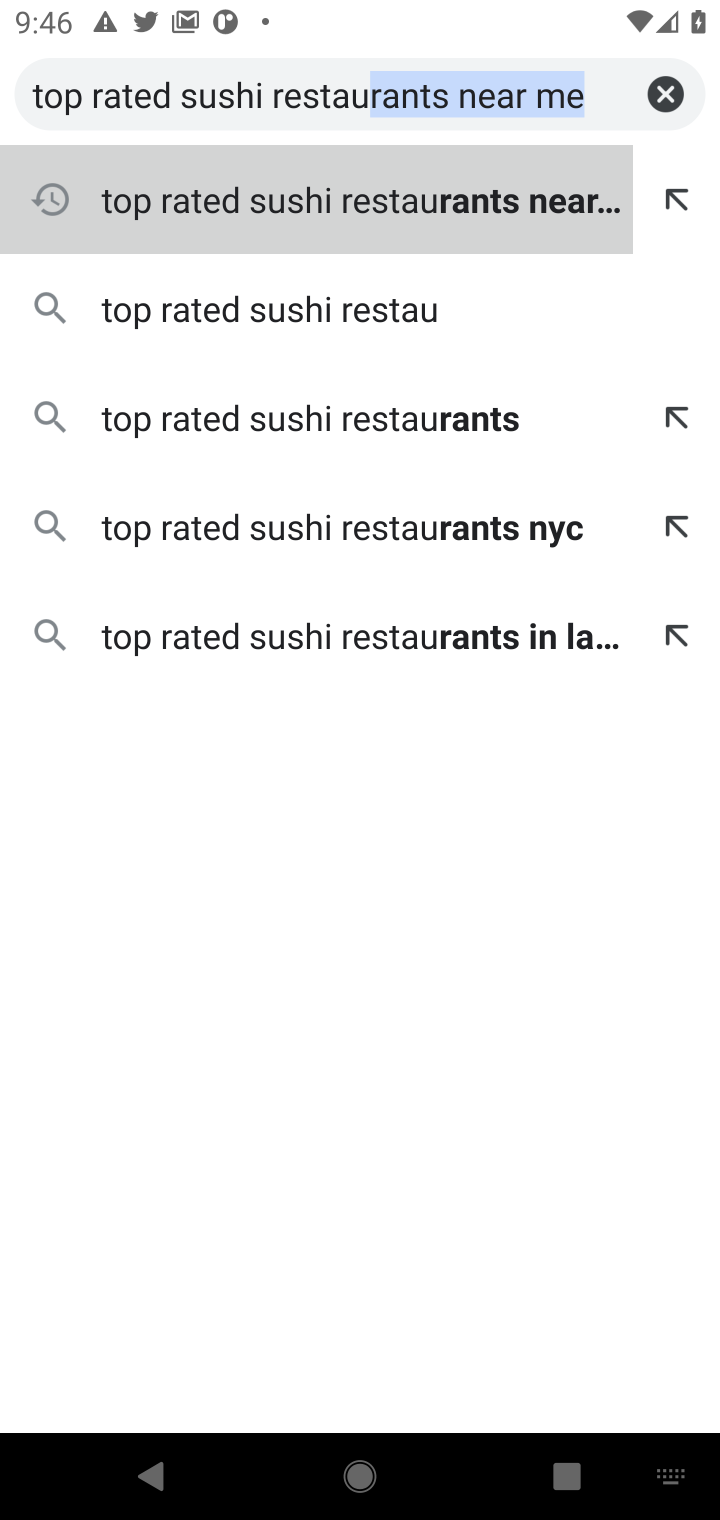
Step 30: click (314, 419)
Your task to perform on an android device: Search for top rated sushi restaurant Image 31: 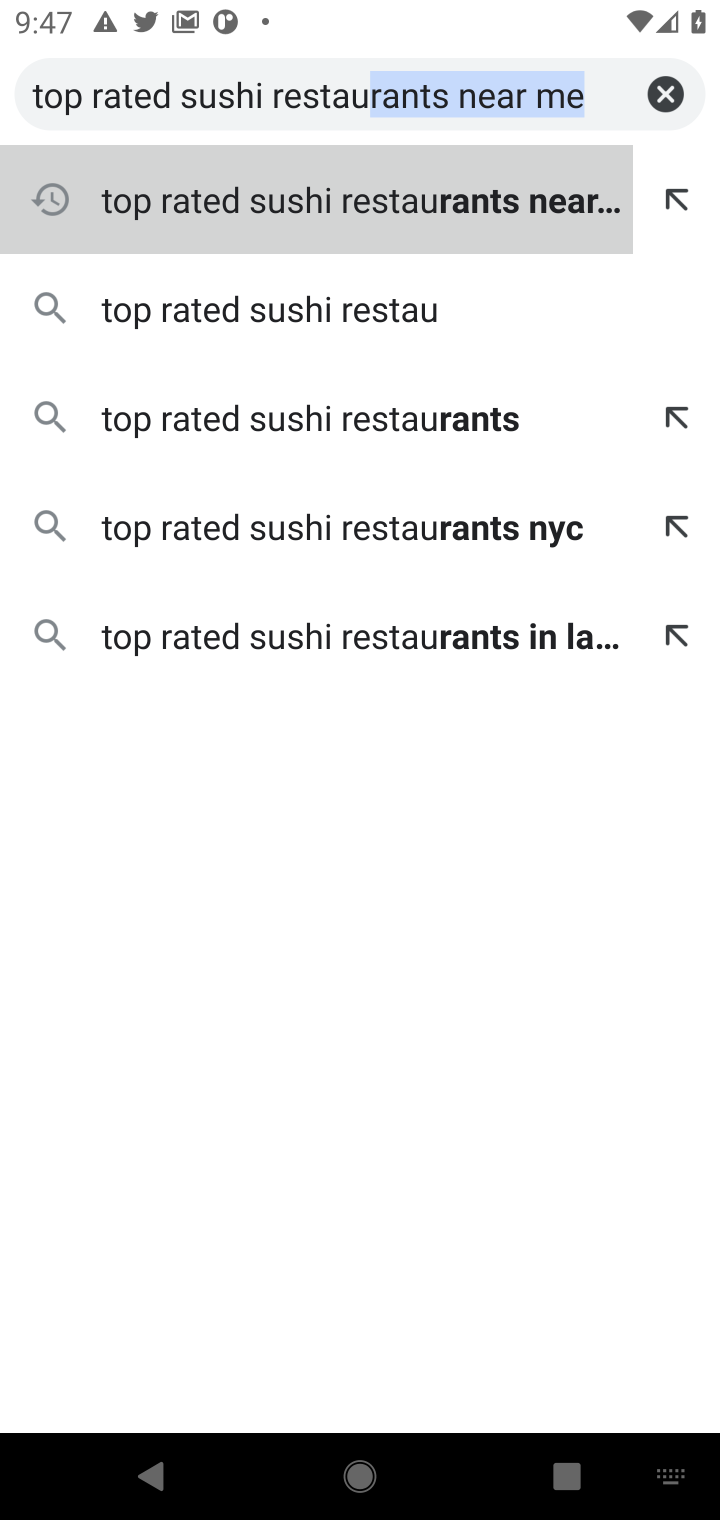
Step 31: click (316, 196)
Your task to perform on an android device: Search for top rated sushi restaurant Image 32: 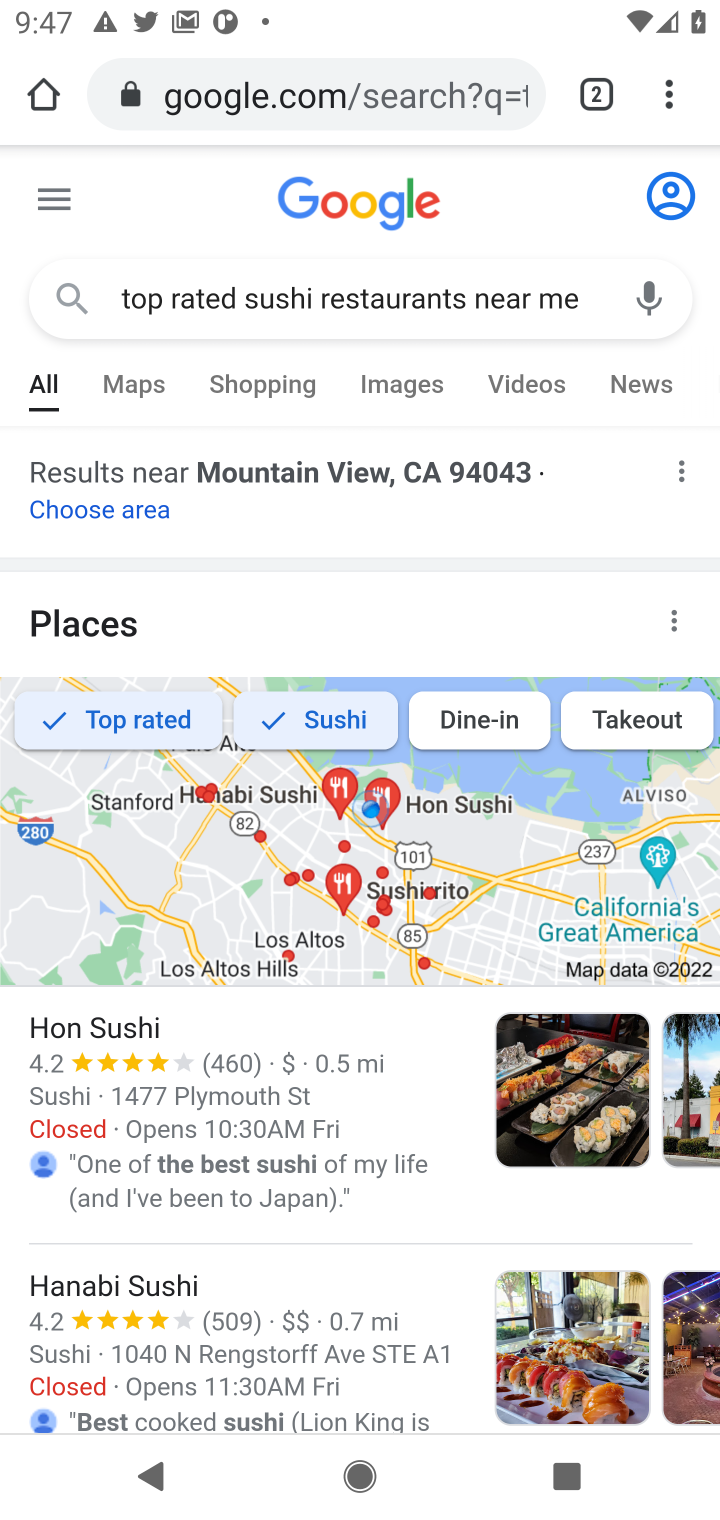
Step 32: task complete